Your task to perform on an android device: Empty the shopping cart on walmart. Add macbook to the cart on walmart, then select checkout. Image 0: 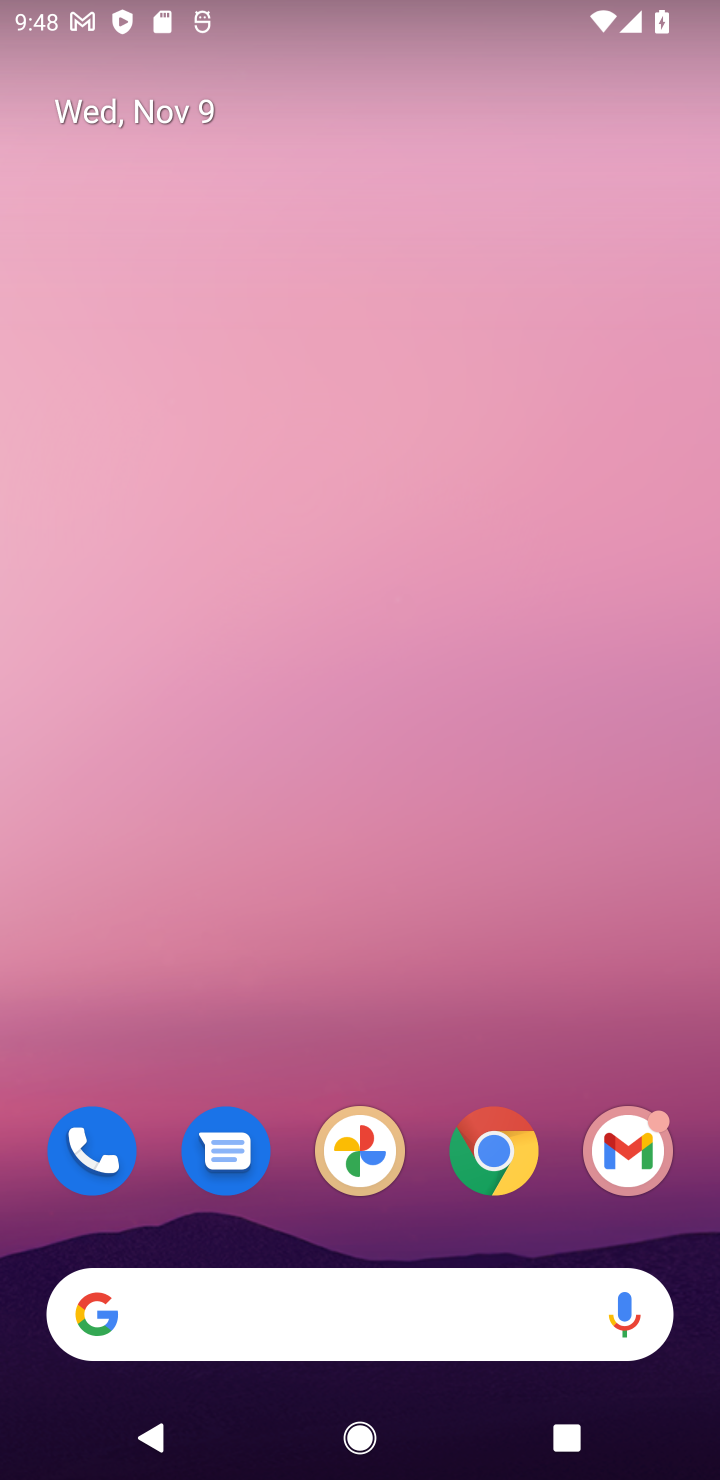
Step 0: click (486, 1147)
Your task to perform on an android device: Empty the shopping cart on walmart. Add macbook to the cart on walmart, then select checkout. Image 1: 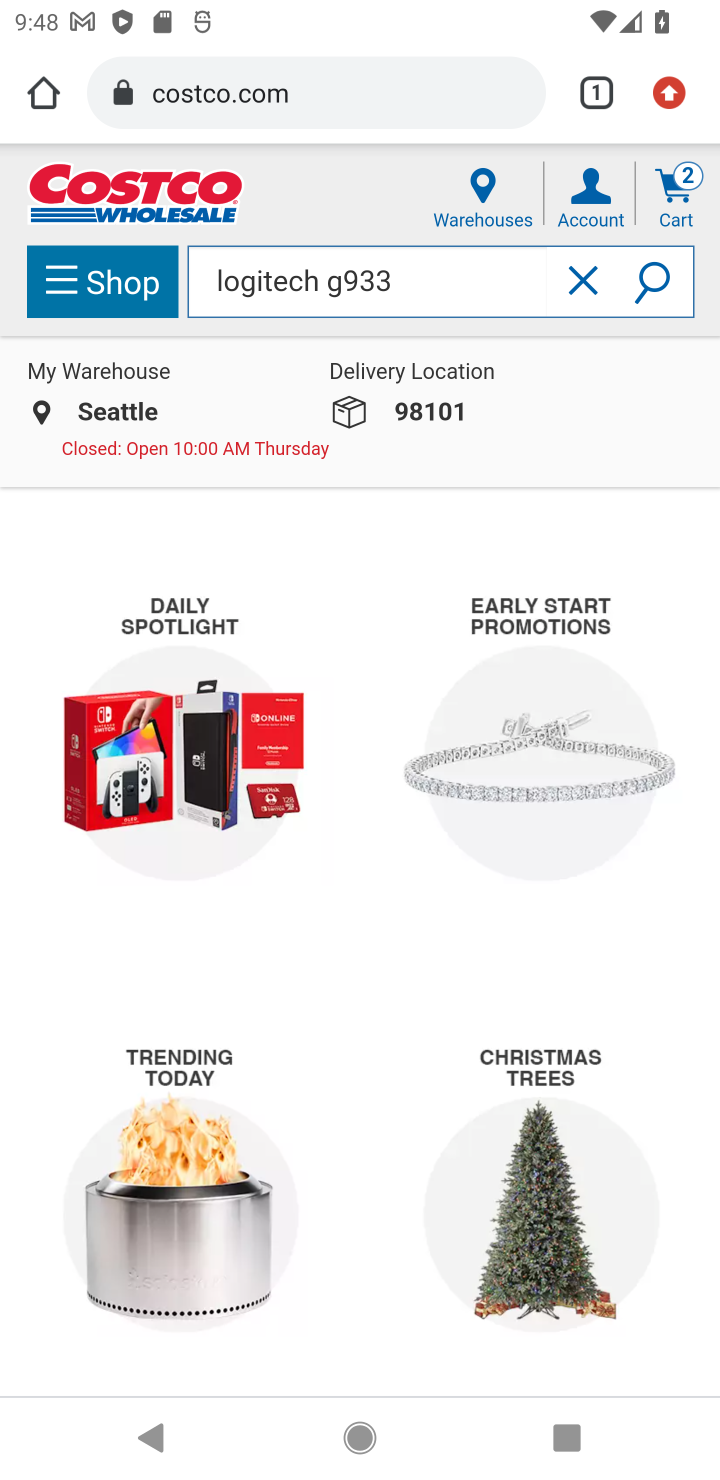
Step 1: click (41, 90)
Your task to perform on an android device: Empty the shopping cart on walmart. Add macbook to the cart on walmart, then select checkout. Image 2: 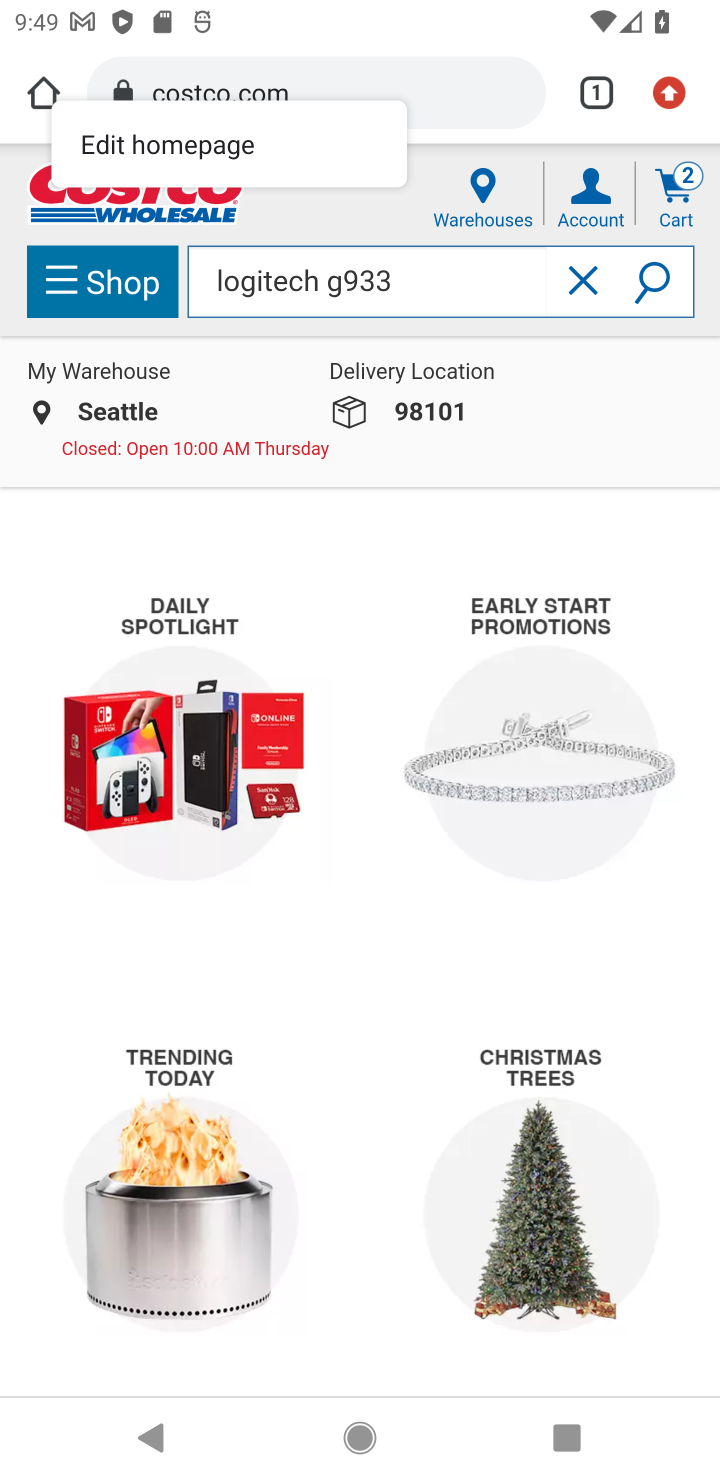
Step 2: click (35, 96)
Your task to perform on an android device: Empty the shopping cart on walmart. Add macbook to the cart on walmart, then select checkout. Image 3: 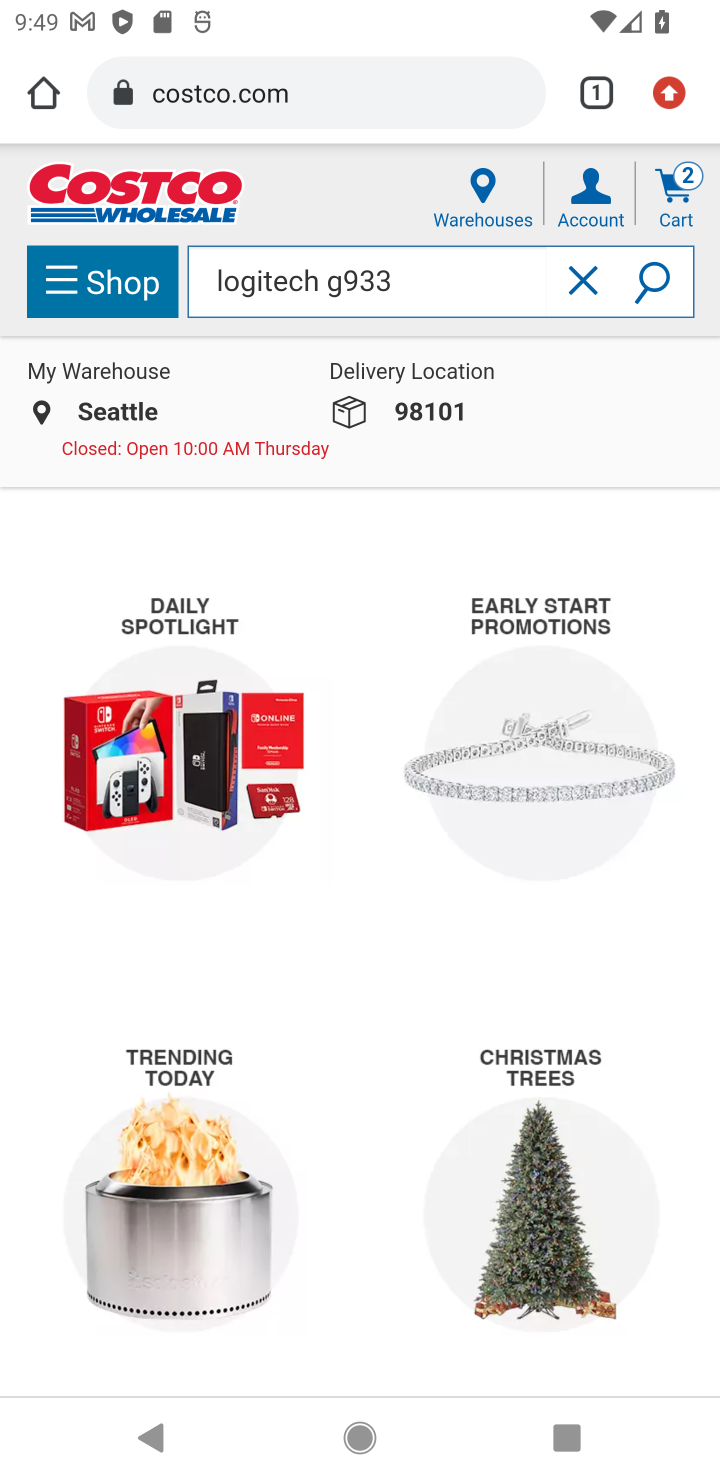
Step 3: click (32, 95)
Your task to perform on an android device: Empty the shopping cart on walmart. Add macbook to the cart on walmart, then select checkout. Image 4: 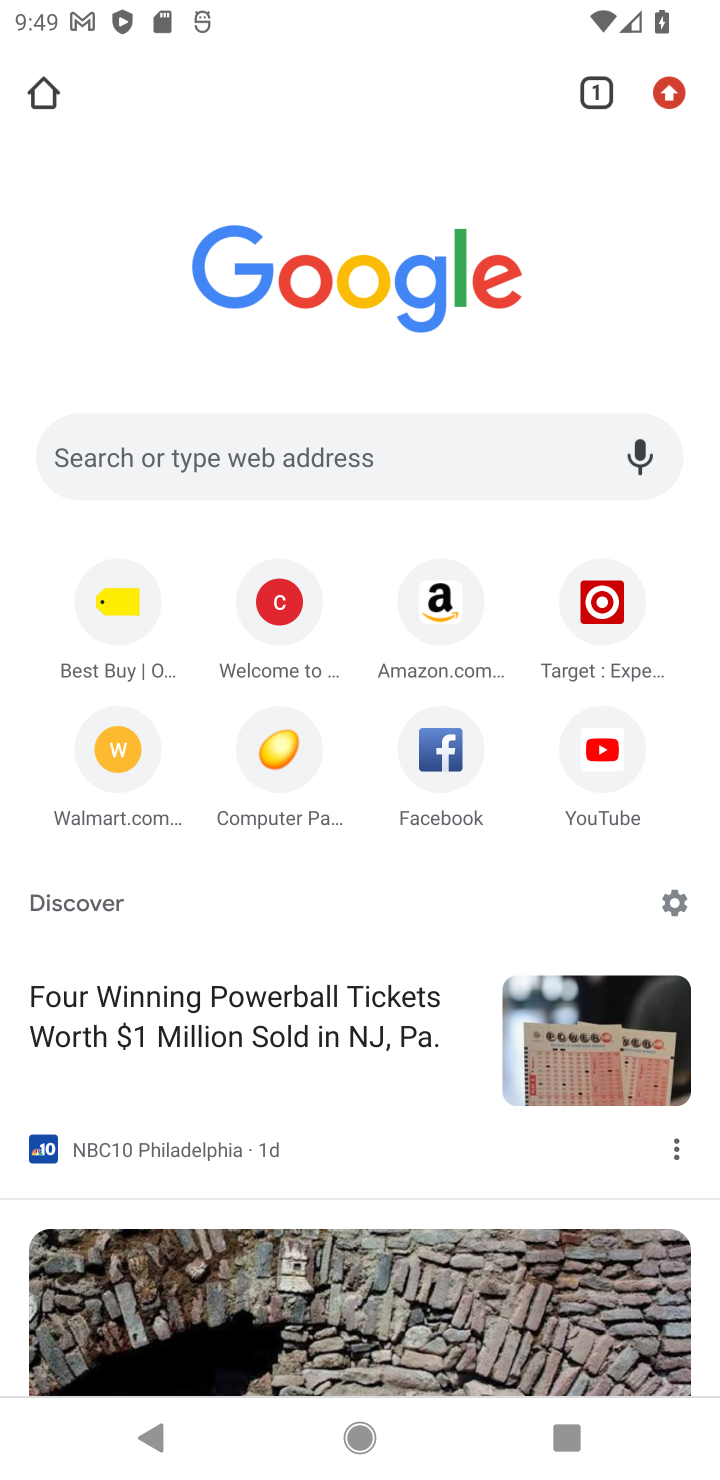
Step 4: click (427, 473)
Your task to perform on an android device: Empty the shopping cart on walmart. Add macbook to the cart on walmart, then select checkout. Image 5: 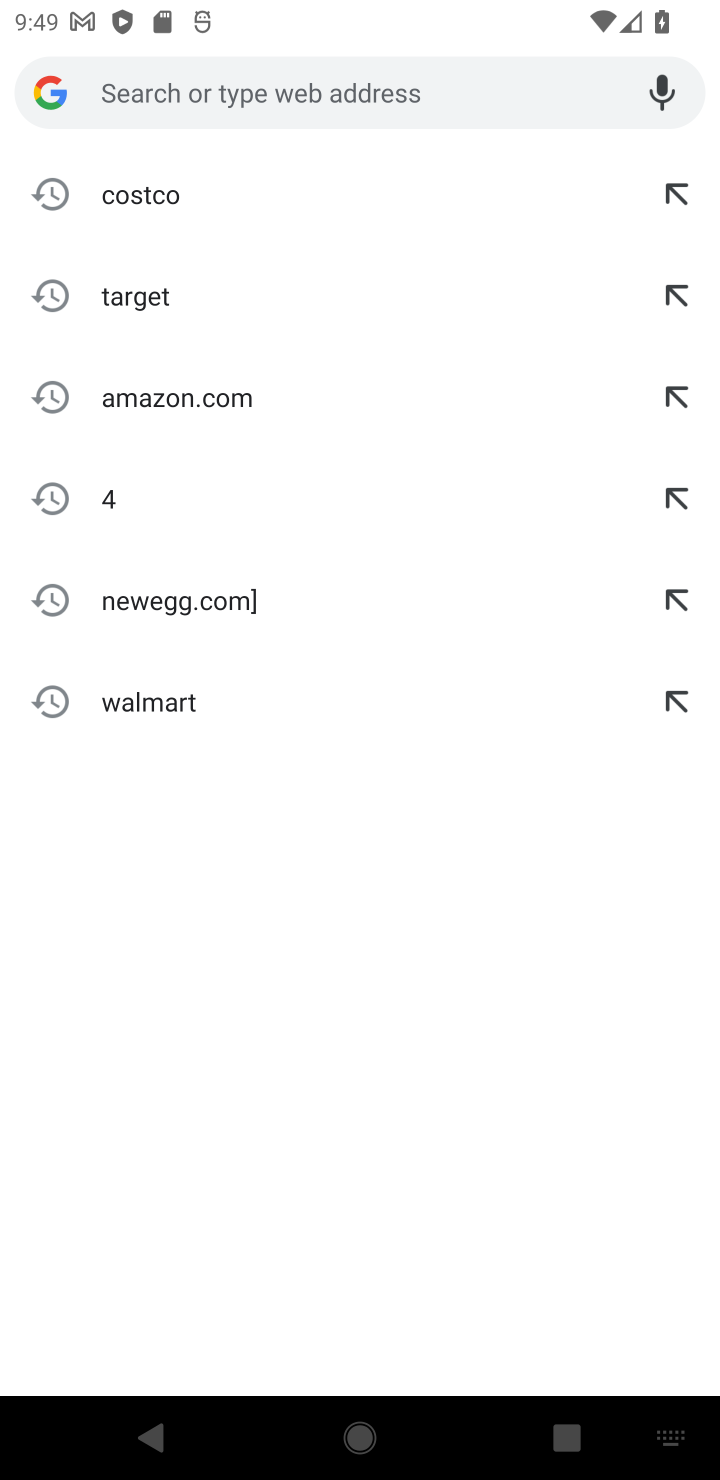
Step 5: type "logitech g933"
Your task to perform on an android device: Empty the shopping cart on walmart. Add macbook to the cart on walmart, then select checkout. Image 6: 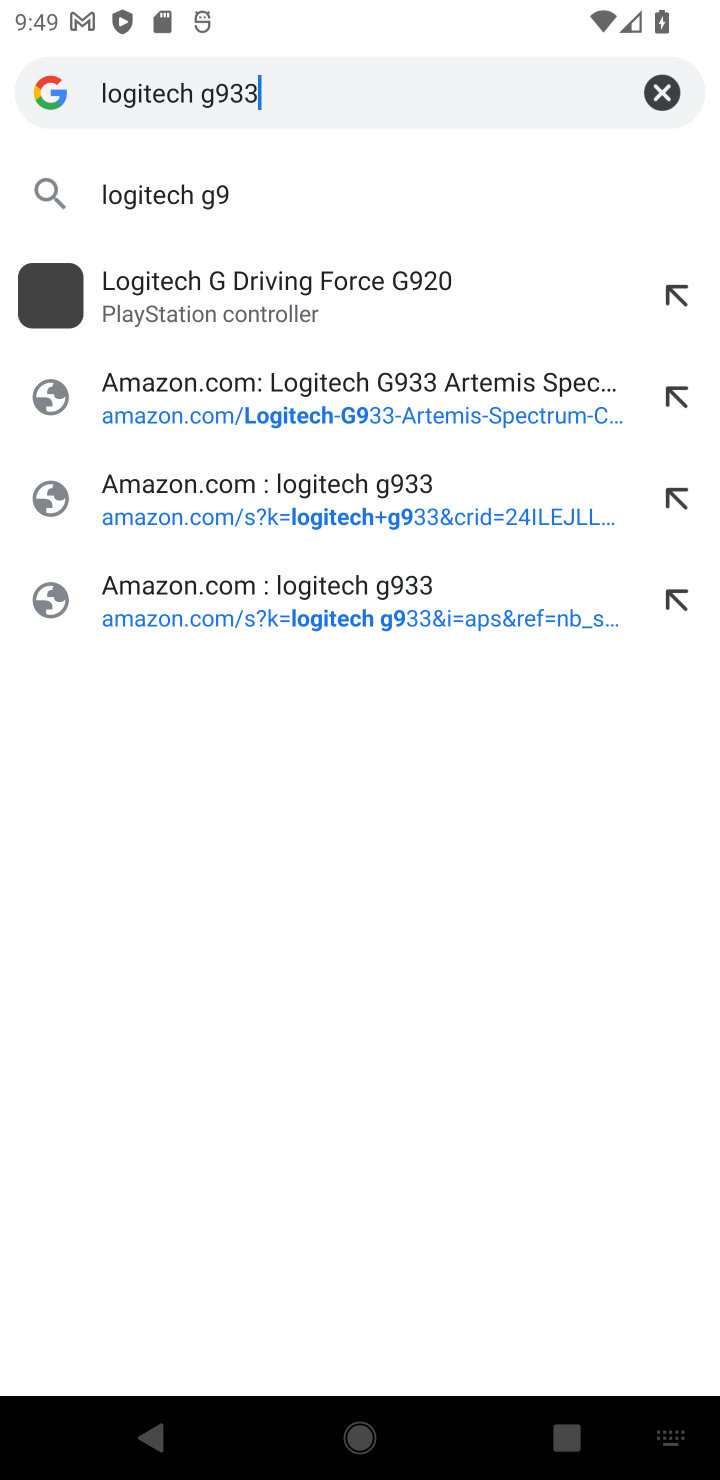
Step 6: press enter
Your task to perform on an android device: Empty the shopping cart on walmart. Add macbook to the cart on walmart, then select checkout. Image 7: 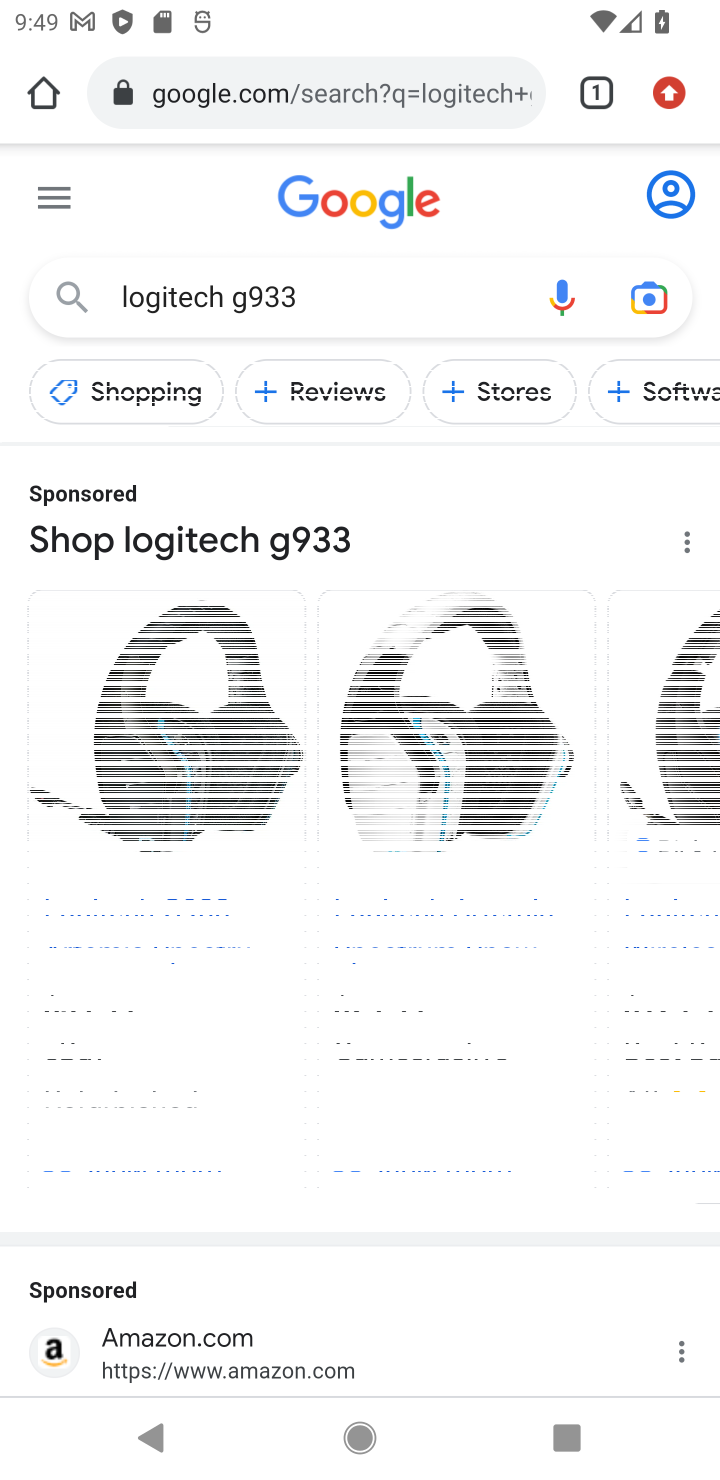
Step 7: click (47, 97)
Your task to perform on an android device: Empty the shopping cart on walmart. Add macbook to the cart on walmart, then select checkout. Image 8: 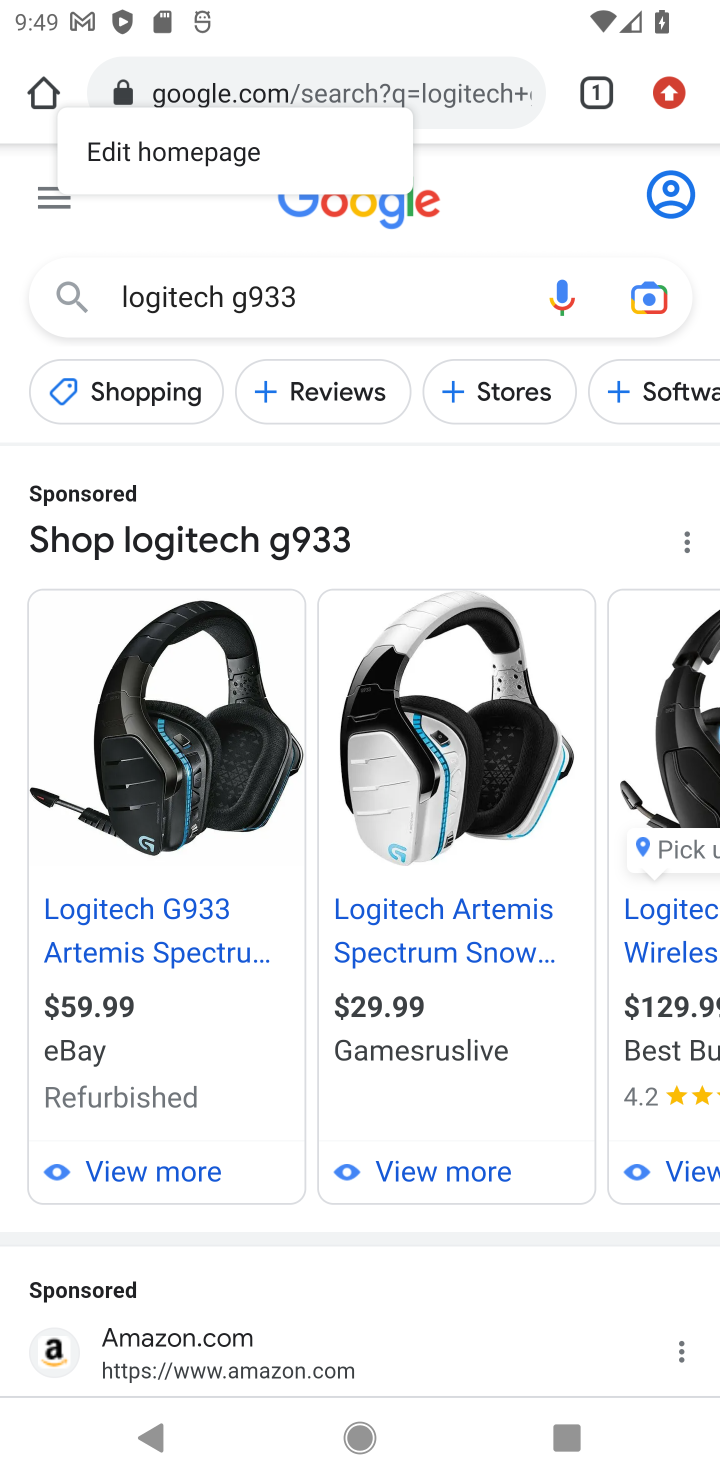
Step 8: click (39, 89)
Your task to perform on an android device: Empty the shopping cart on walmart. Add macbook to the cart on walmart, then select checkout. Image 9: 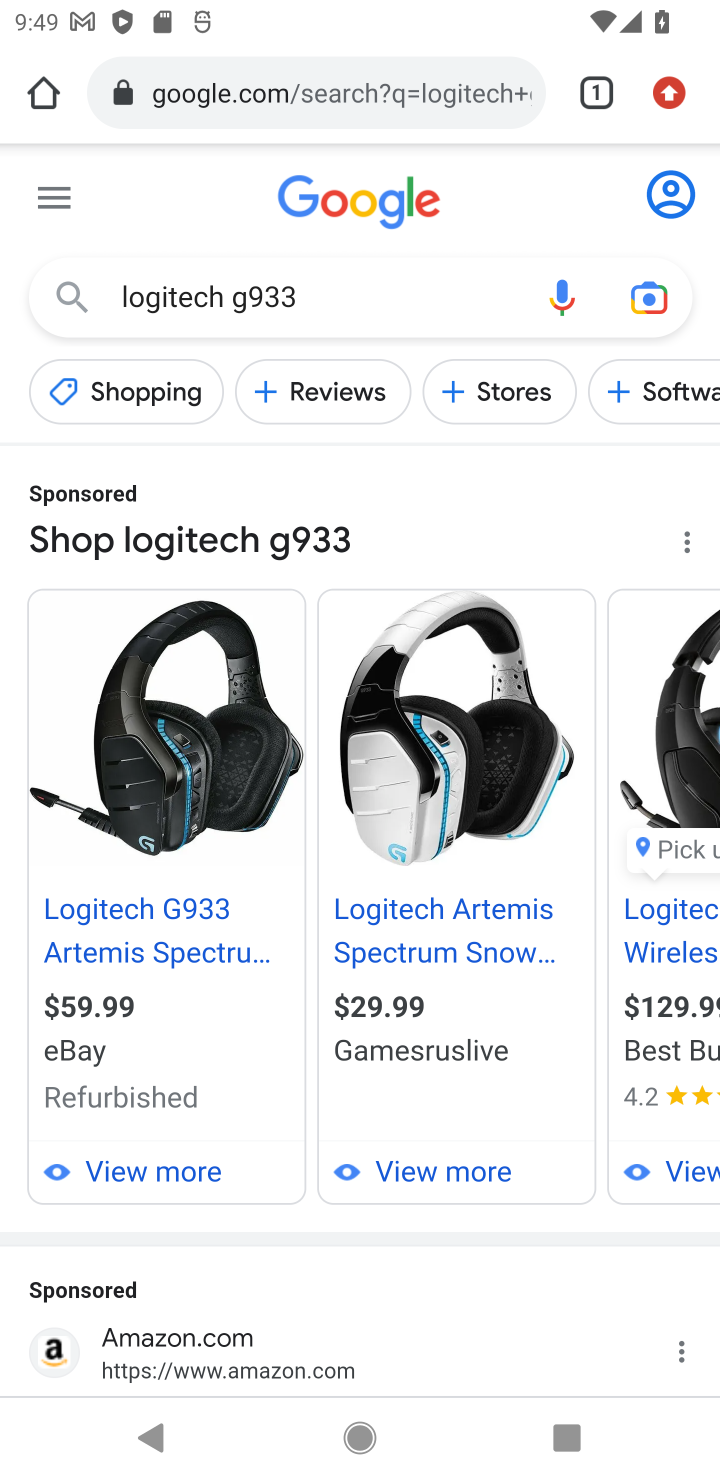
Step 9: click (478, 86)
Your task to perform on an android device: Empty the shopping cart on walmart. Add macbook to the cart on walmart, then select checkout. Image 10: 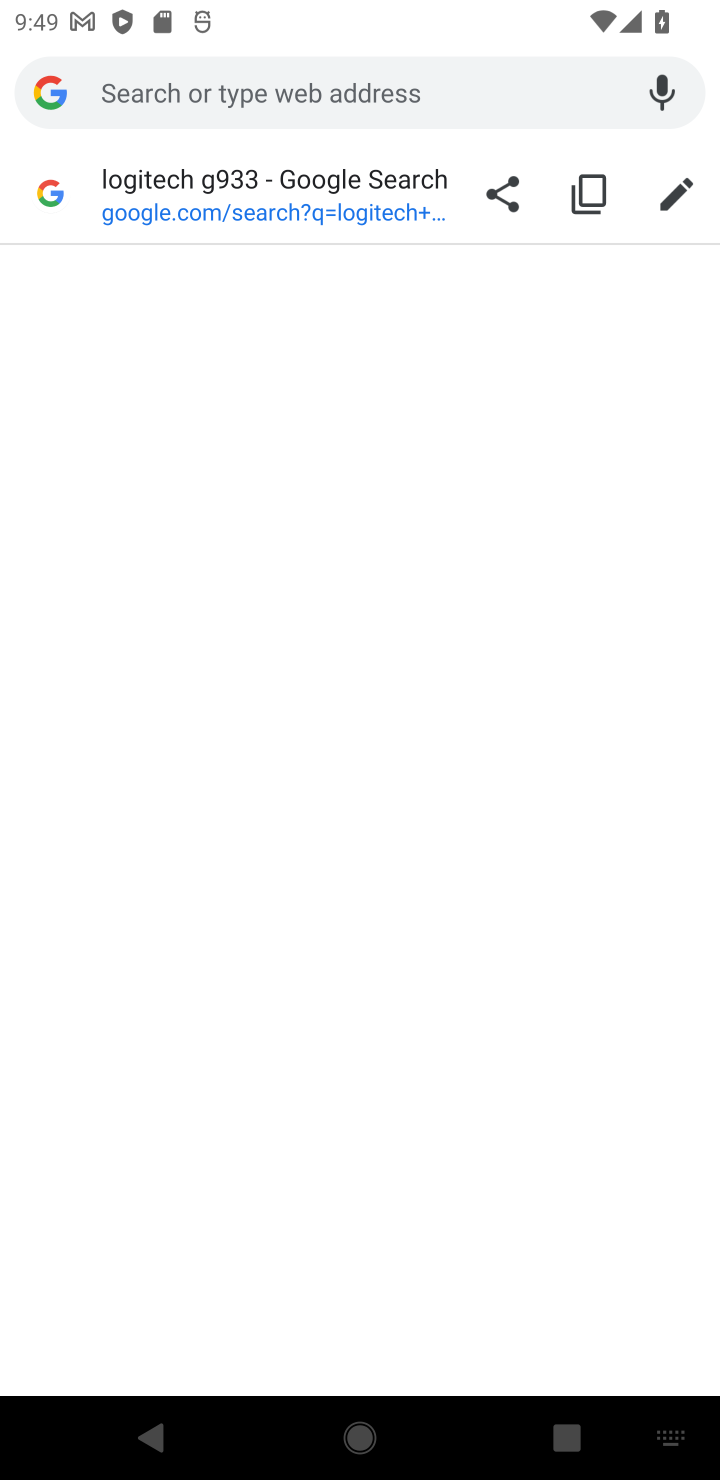
Step 10: click (478, 86)
Your task to perform on an android device: Empty the shopping cart on walmart. Add macbook to the cart on walmart, then select checkout. Image 11: 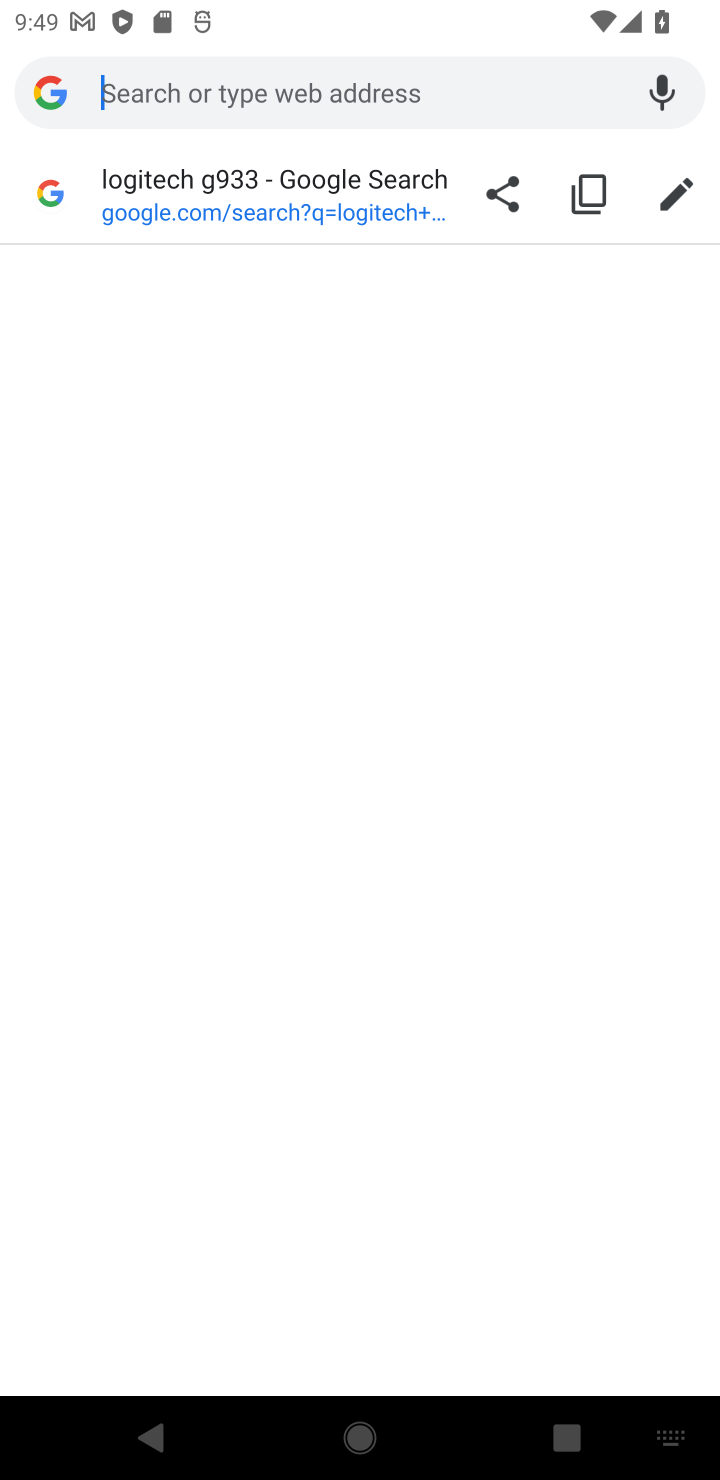
Step 11: type "walmart"
Your task to perform on an android device: Empty the shopping cart on walmart. Add macbook to the cart on walmart, then select checkout. Image 12: 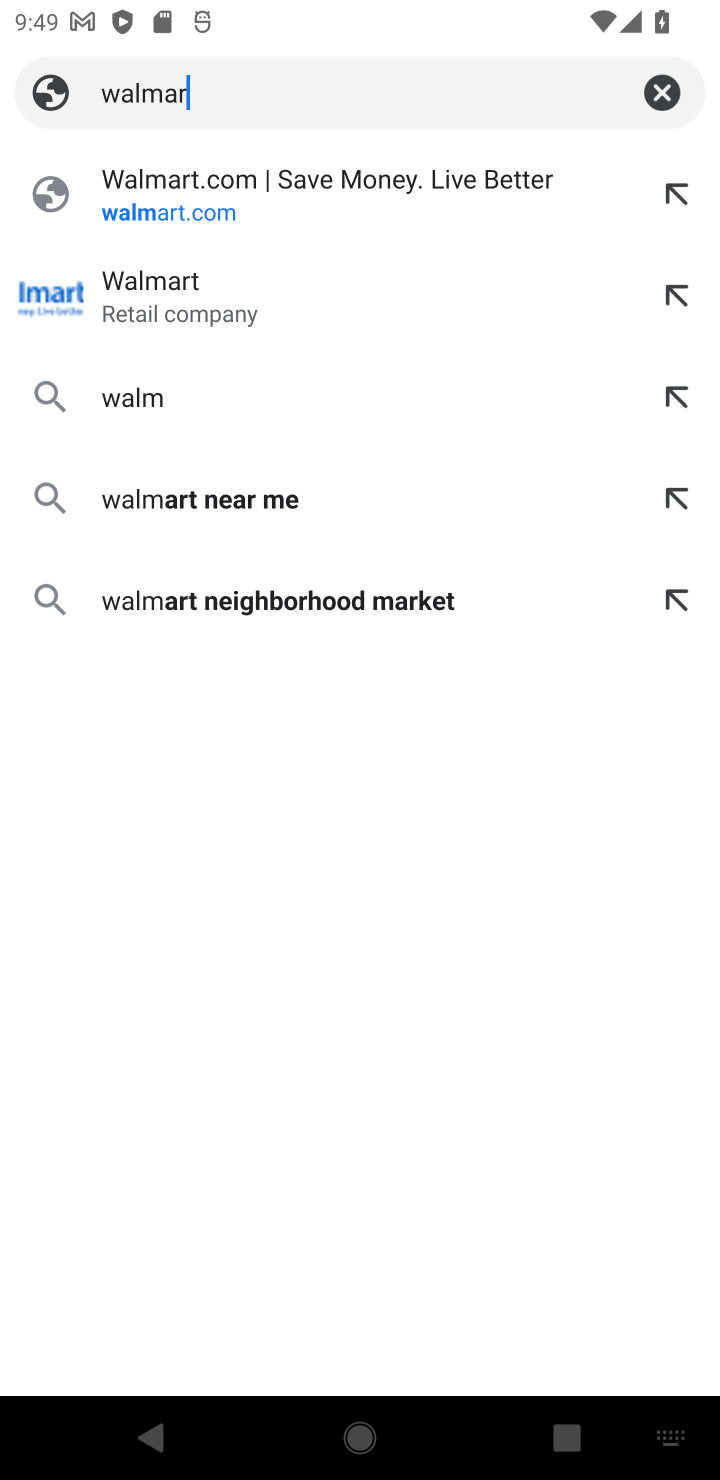
Step 12: press enter
Your task to perform on an android device: Empty the shopping cart on walmart. Add macbook to the cart on walmart, then select checkout. Image 13: 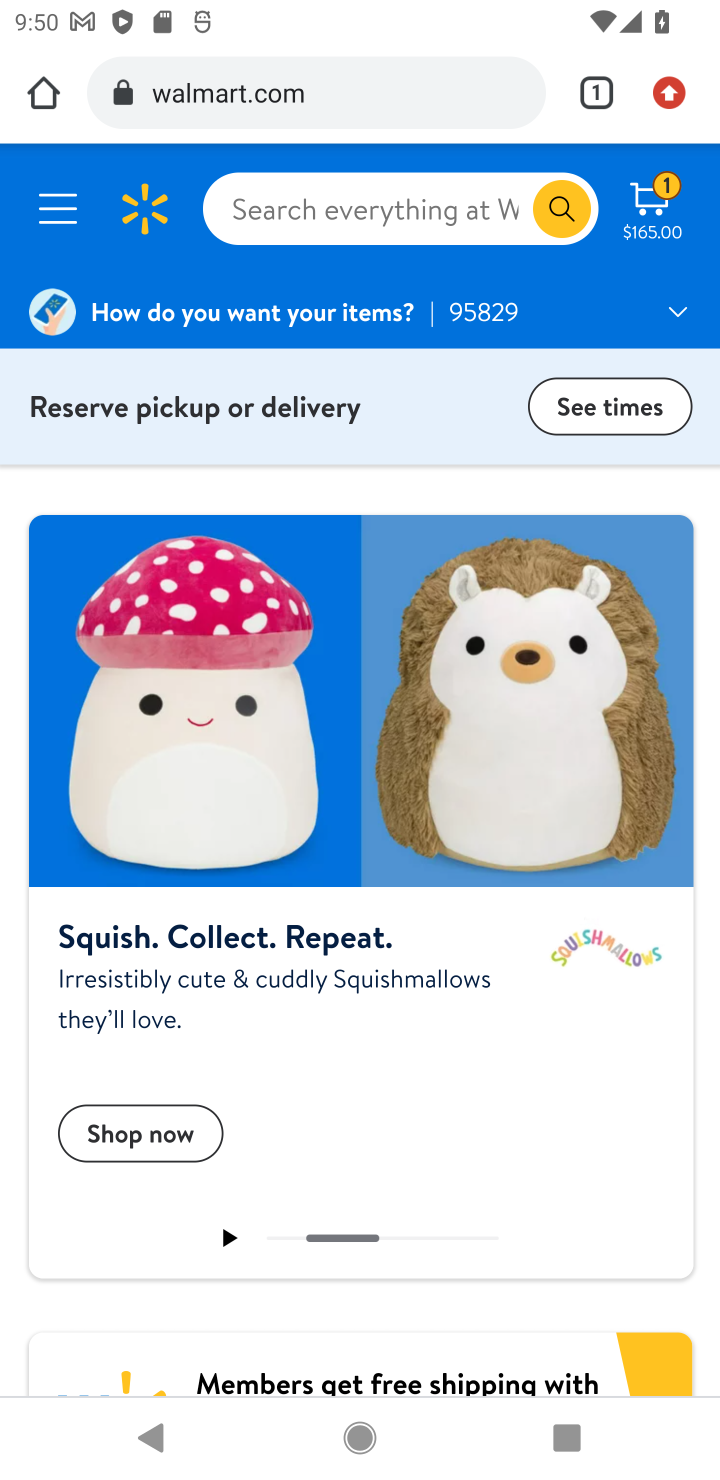
Step 13: click (651, 202)
Your task to perform on an android device: Empty the shopping cart on walmart. Add macbook to the cart on walmart, then select checkout. Image 14: 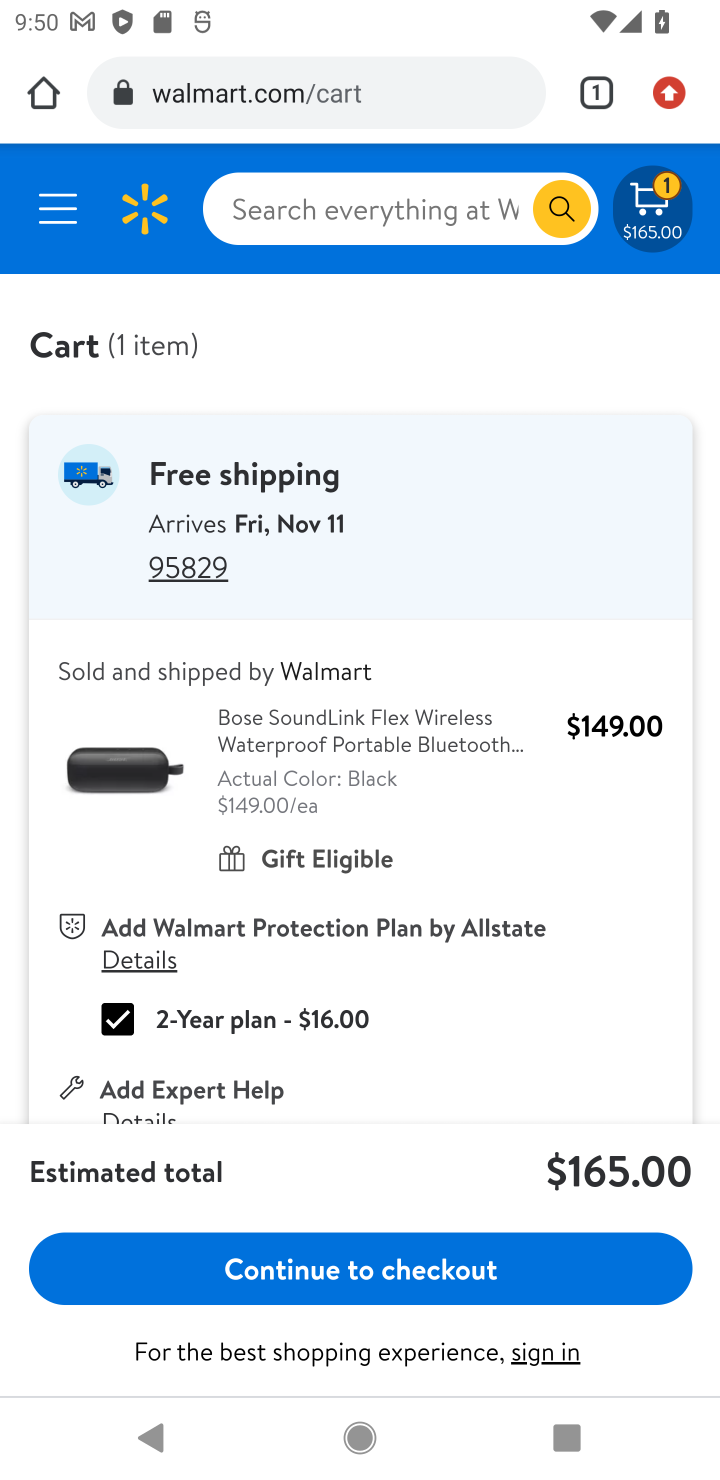
Step 14: drag from (480, 1068) to (506, 652)
Your task to perform on an android device: Empty the shopping cart on walmart. Add macbook to the cart on walmart, then select checkout. Image 15: 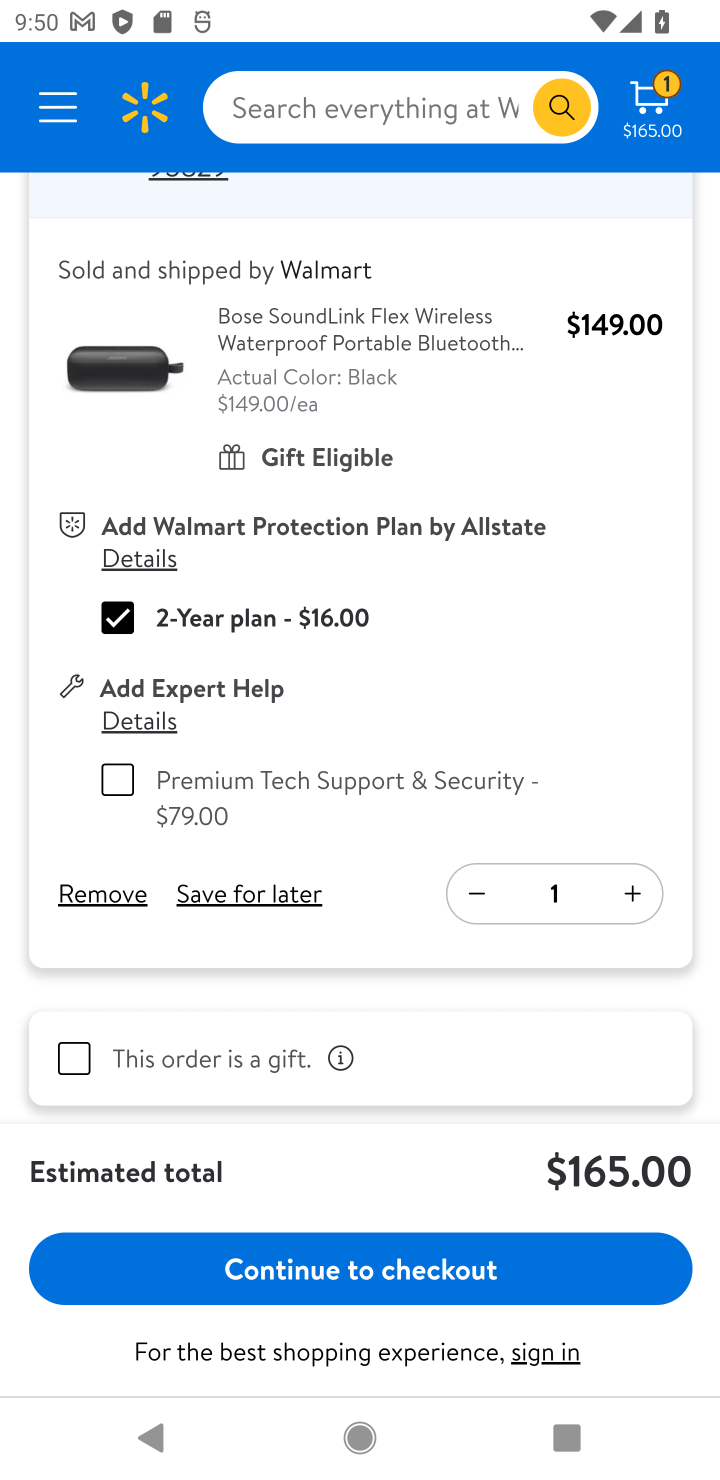
Step 15: click (95, 895)
Your task to perform on an android device: Empty the shopping cart on walmart. Add macbook to the cart on walmart, then select checkout. Image 16: 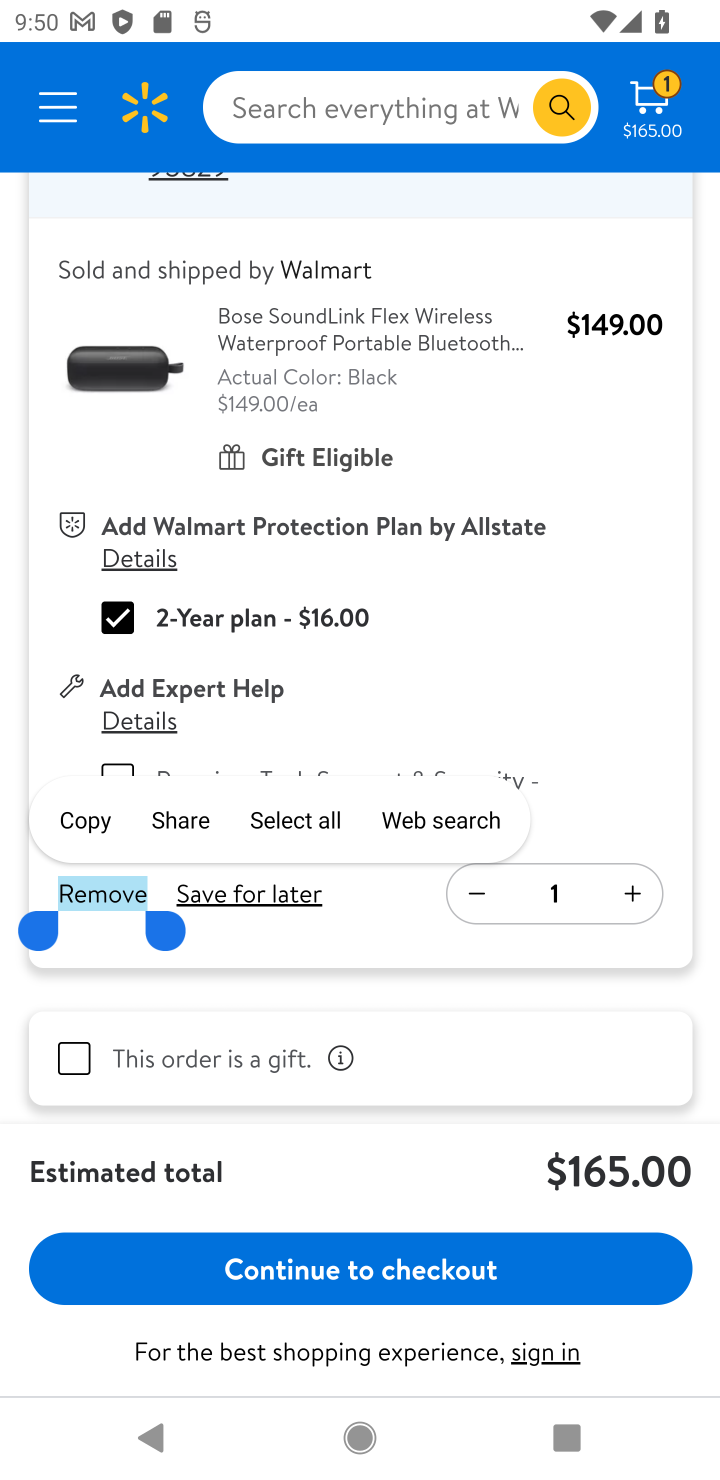
Step 16: click (95, 895)
Your task to perform on an android device: Empty the shopping cart on walmart. Add macbook to the cart on walmart, then select checkout. Image 17: 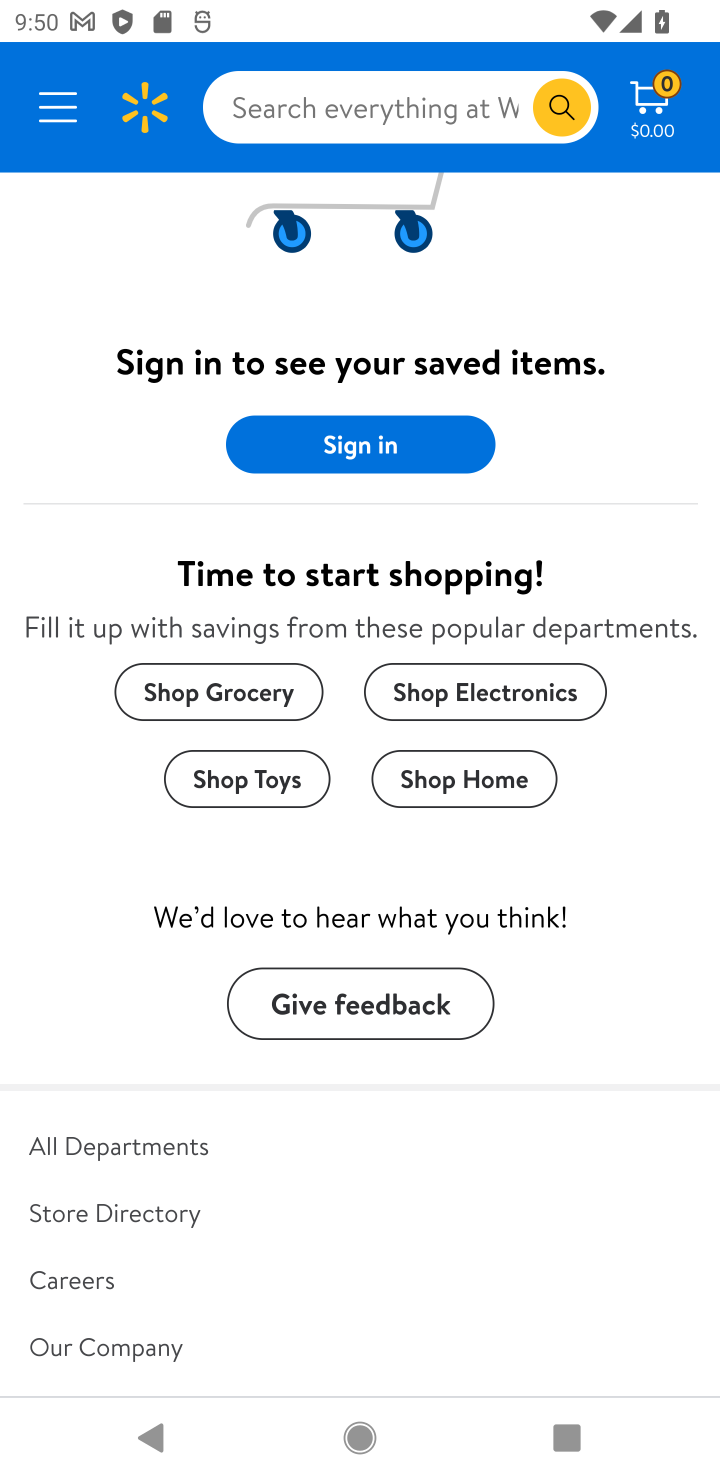
Step 17: click (400, 109)
Your task to perform on an android device: Empty the shopping cart on walmart. Add macbook to the cart on walmart, then select checkout. Image 18: 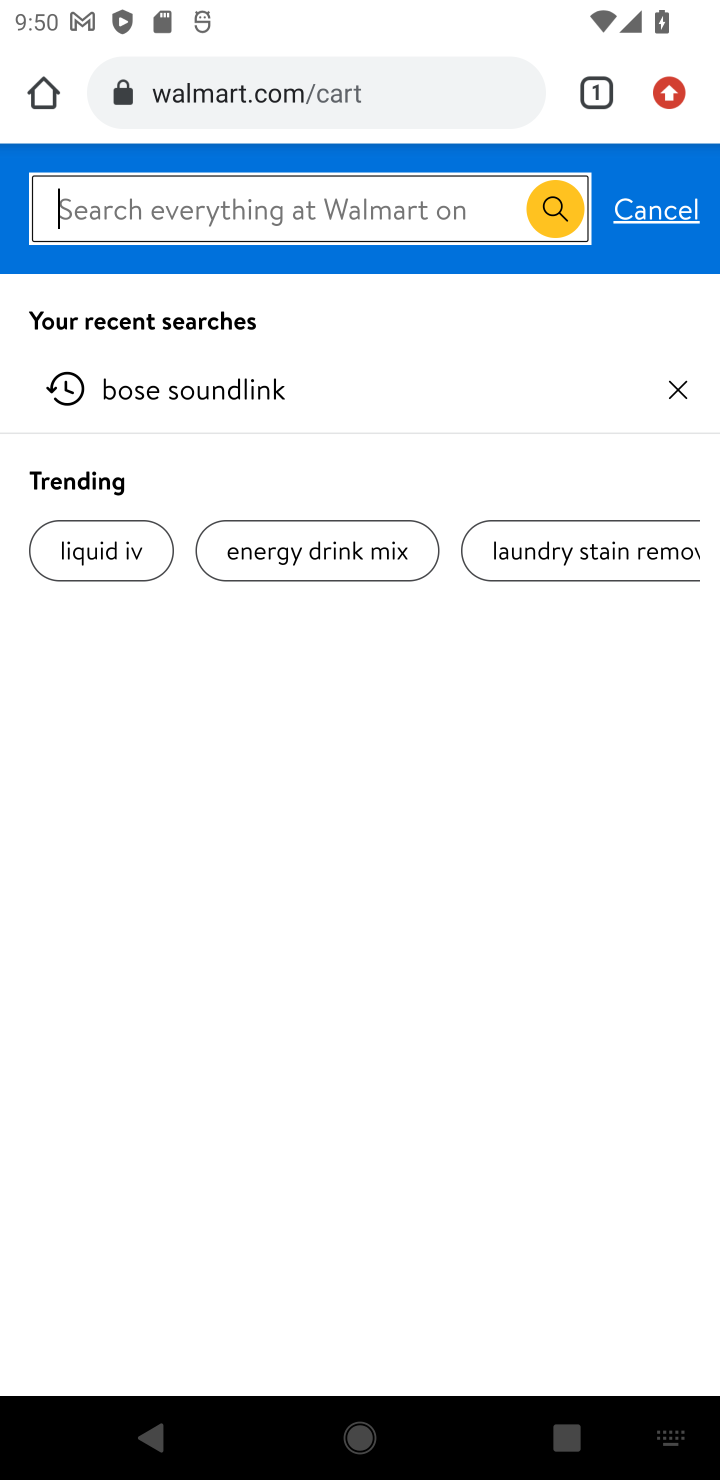
Step 18: press enter
Your task to perform on an android device: Empty the shopping cart on walmart. Add macbook to the cart on walmart, then select checkout. Image 19: 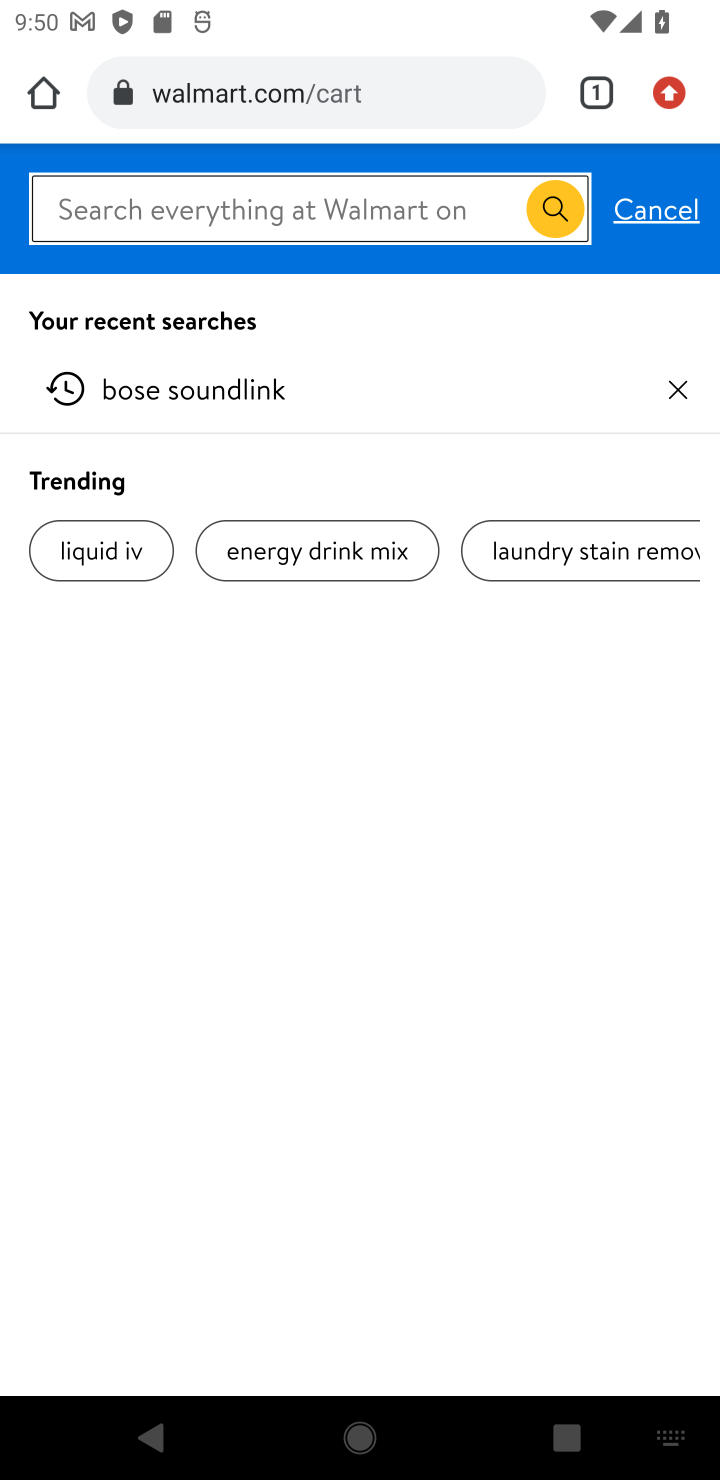
Step 19: type "macbook"
Your task to perform on an android device: Empty the shopping cart on walmart. Add macbook to the cart on walmart, then select checkout. Image 20: 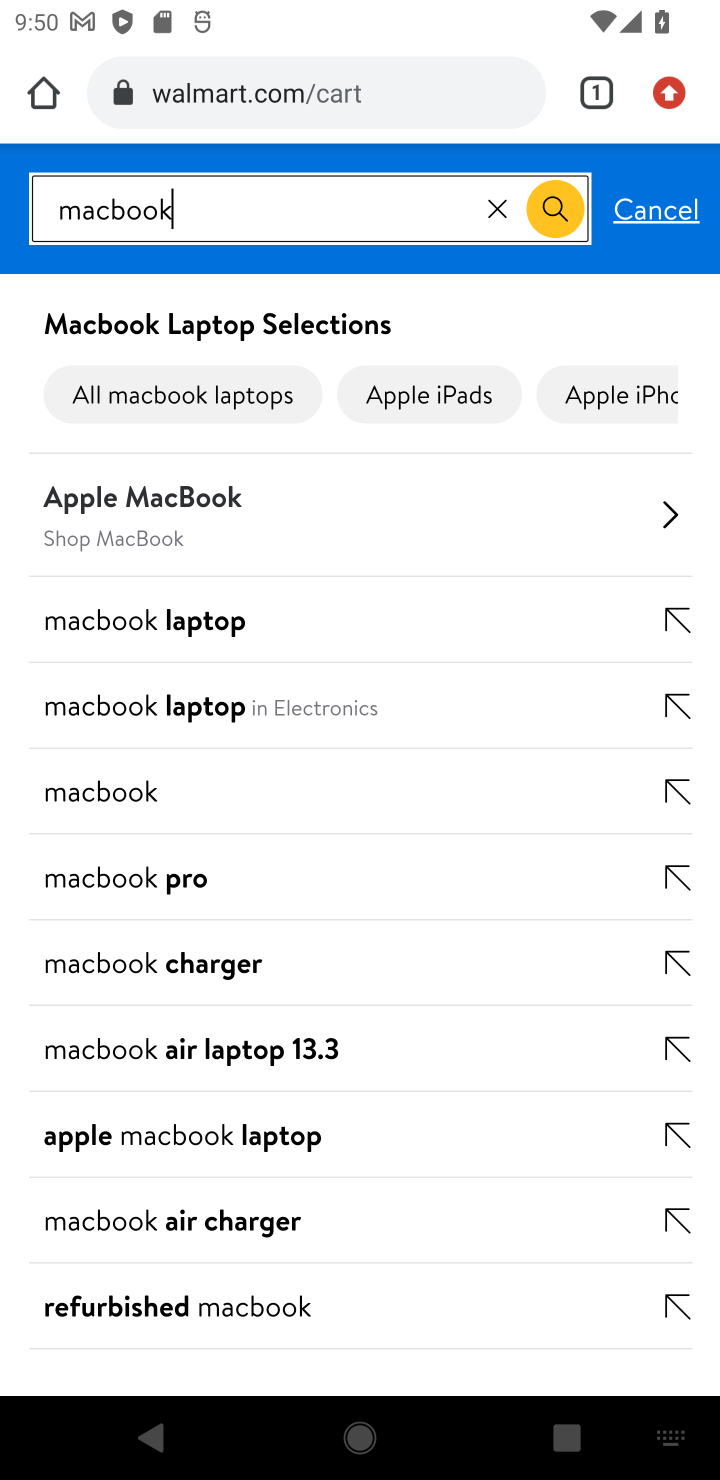
Step 20: click (130, 792)
Your task to perform on an android device: Empty the shopping cart on walmart. Add macbook to the cart on walmart, then select checkout. Image 21: 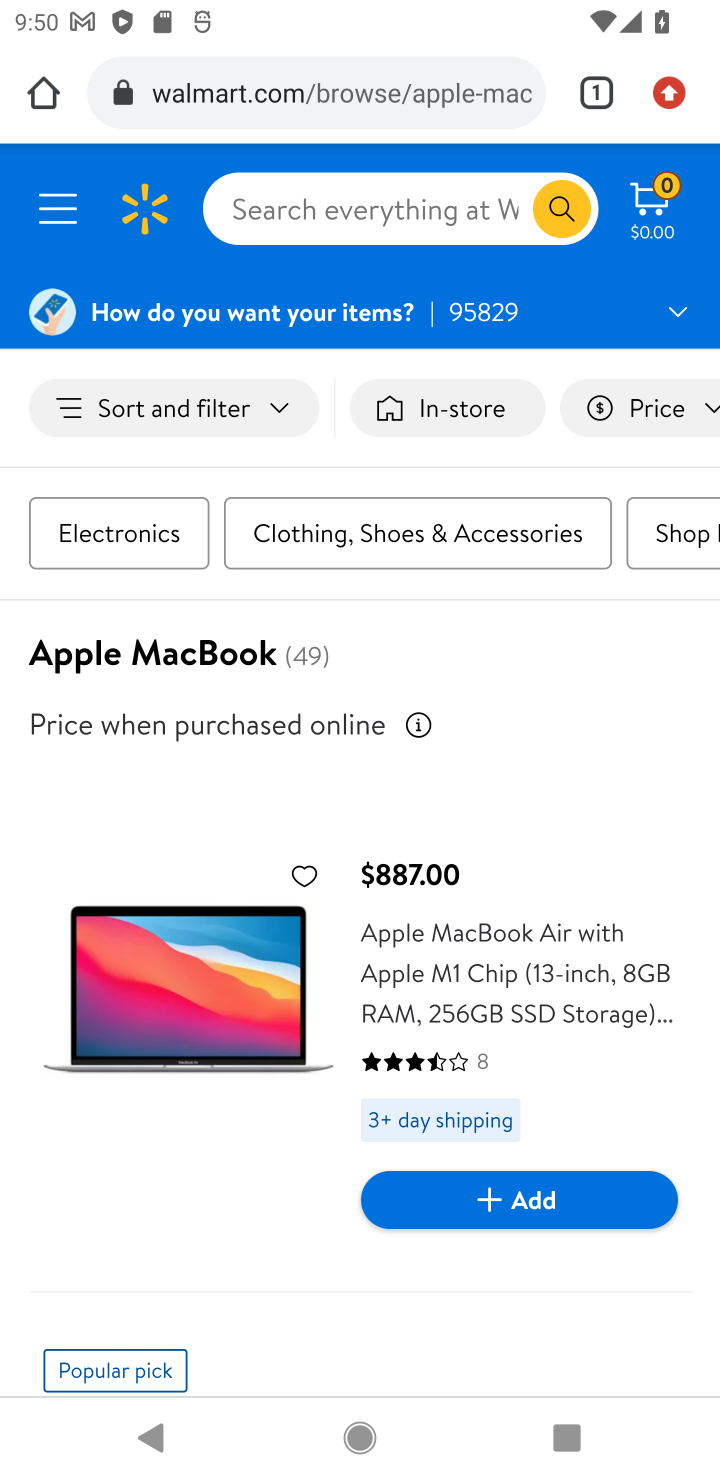
Step 21: drag from (270, 1177) to (330, 529)
Your task to perform on an android device: Empty the shopping cart on walmart. Add macbook to the cart on walmart, then select checkout. Image 22: 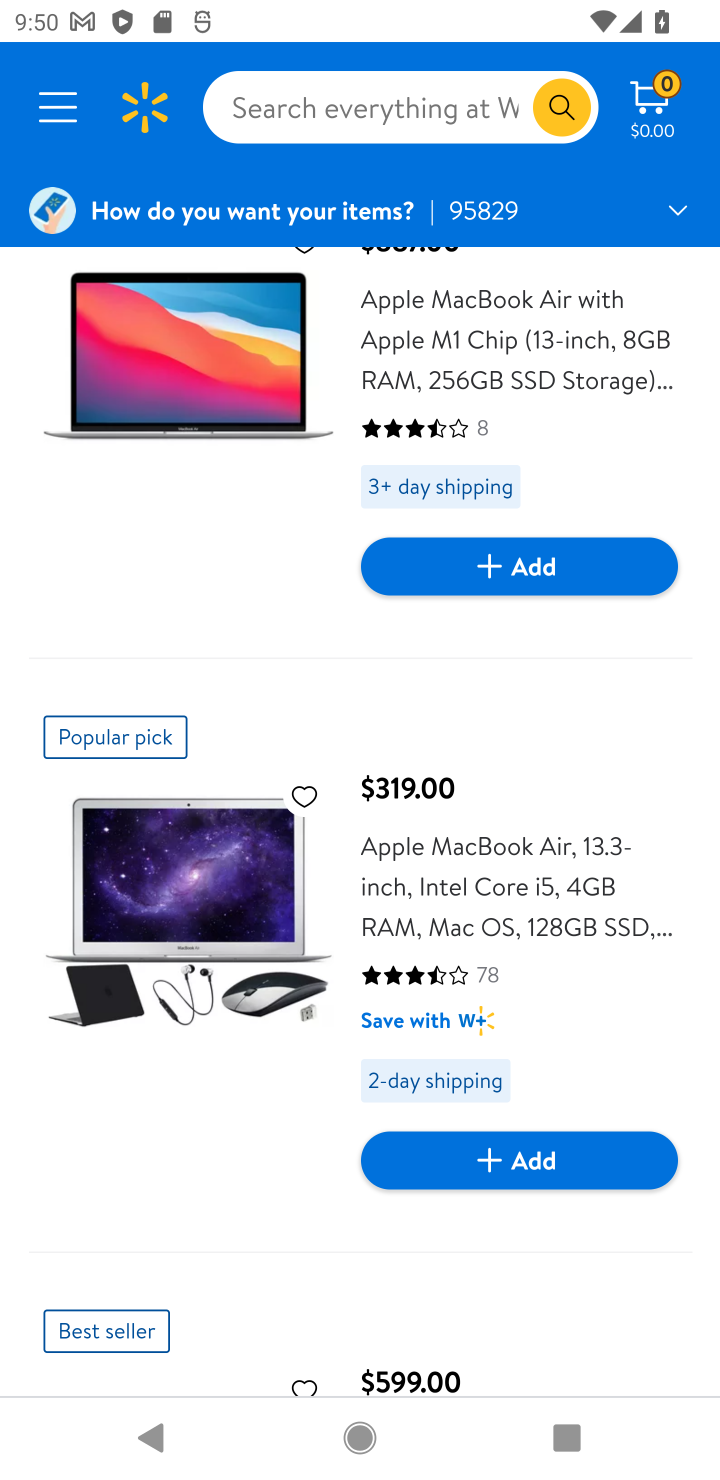
Step 22: click (204, 388)
Your task to perform on an android device: Empty the shopping cart on walmart. Add macbook to the cart on walmart, then select checkout. Image 23: 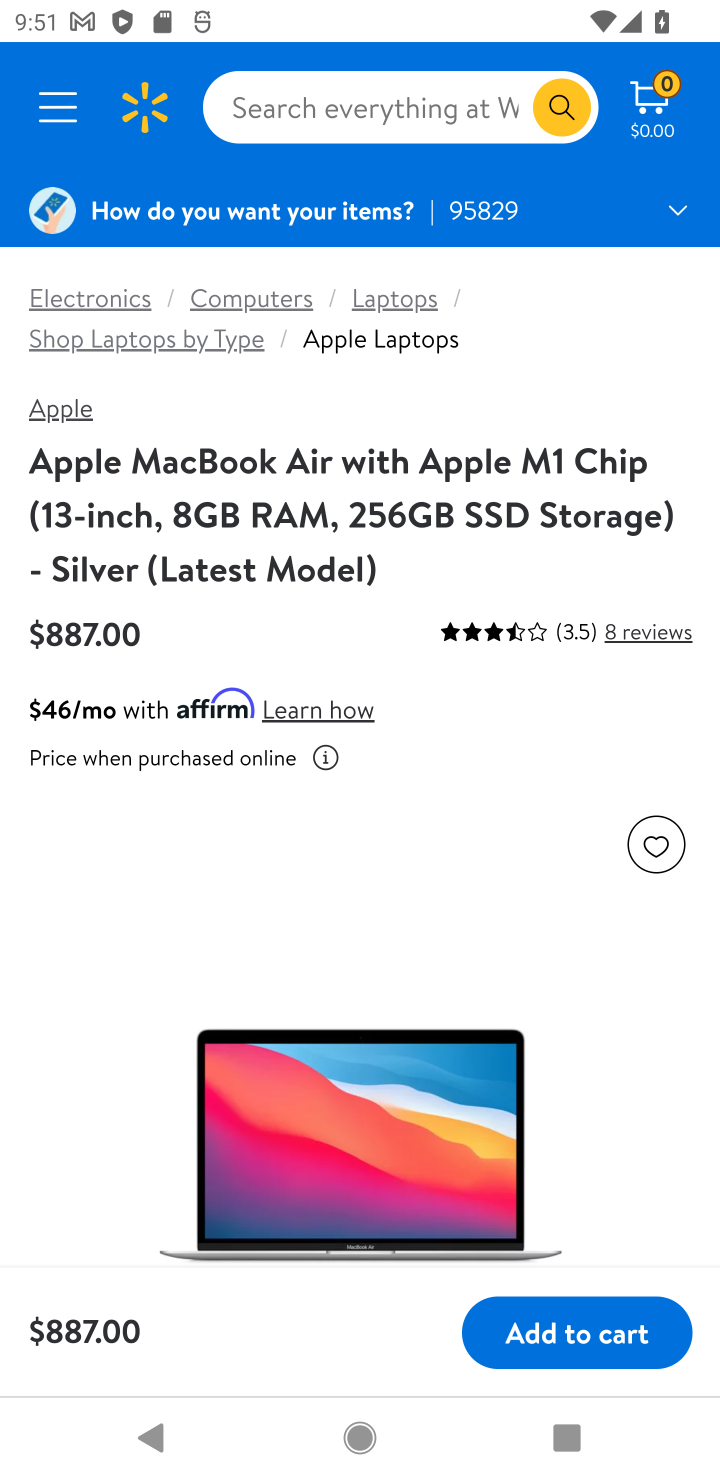
Step 23: click (600, 1330)
Your task to perform on an android device: Empty the shopping cart on walmart. Add macbook to the cart on walmart, then select checkout. Image 24: 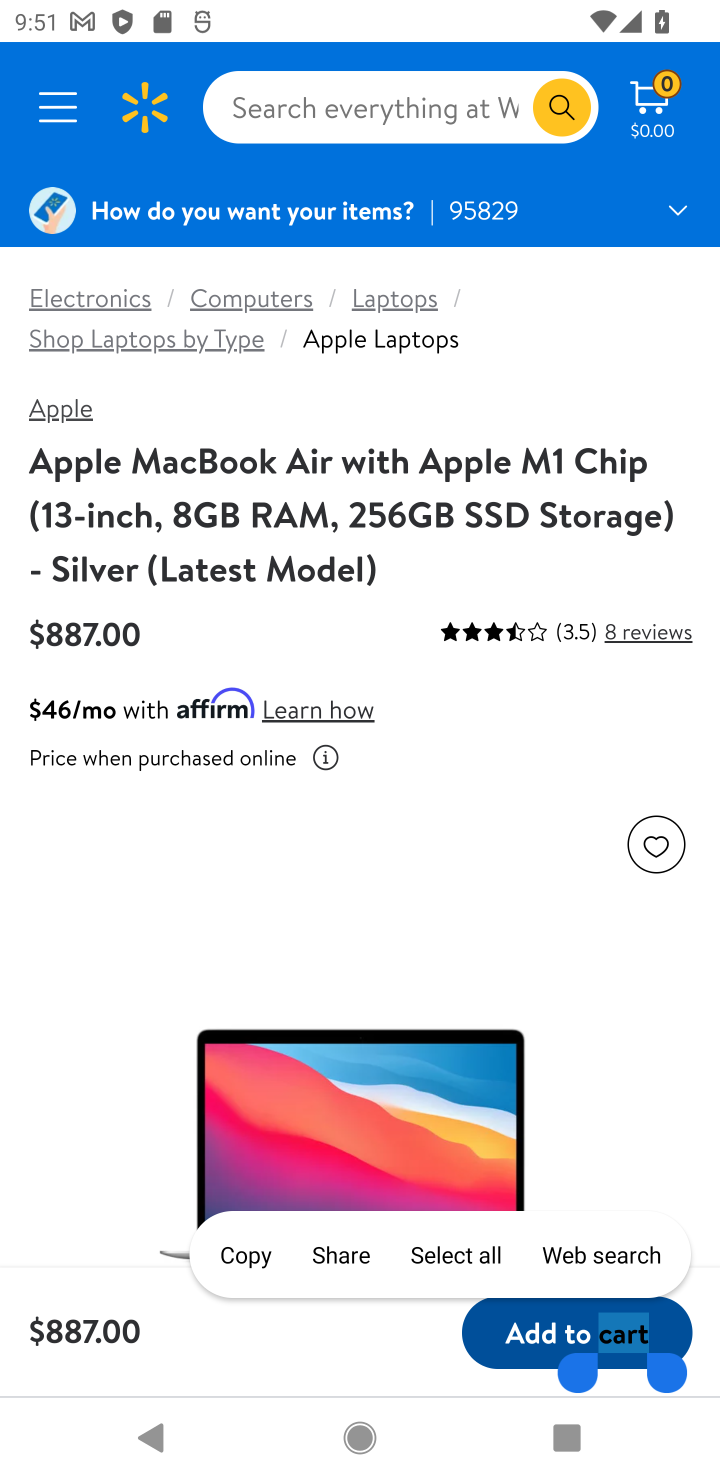
Step 24: drag from (631, 1054) to (613, 692)
Your task to perform on an android device: Empty the shopping cart on walmart. Add macbook to the cart on walmart, then select checkout. Image 25: 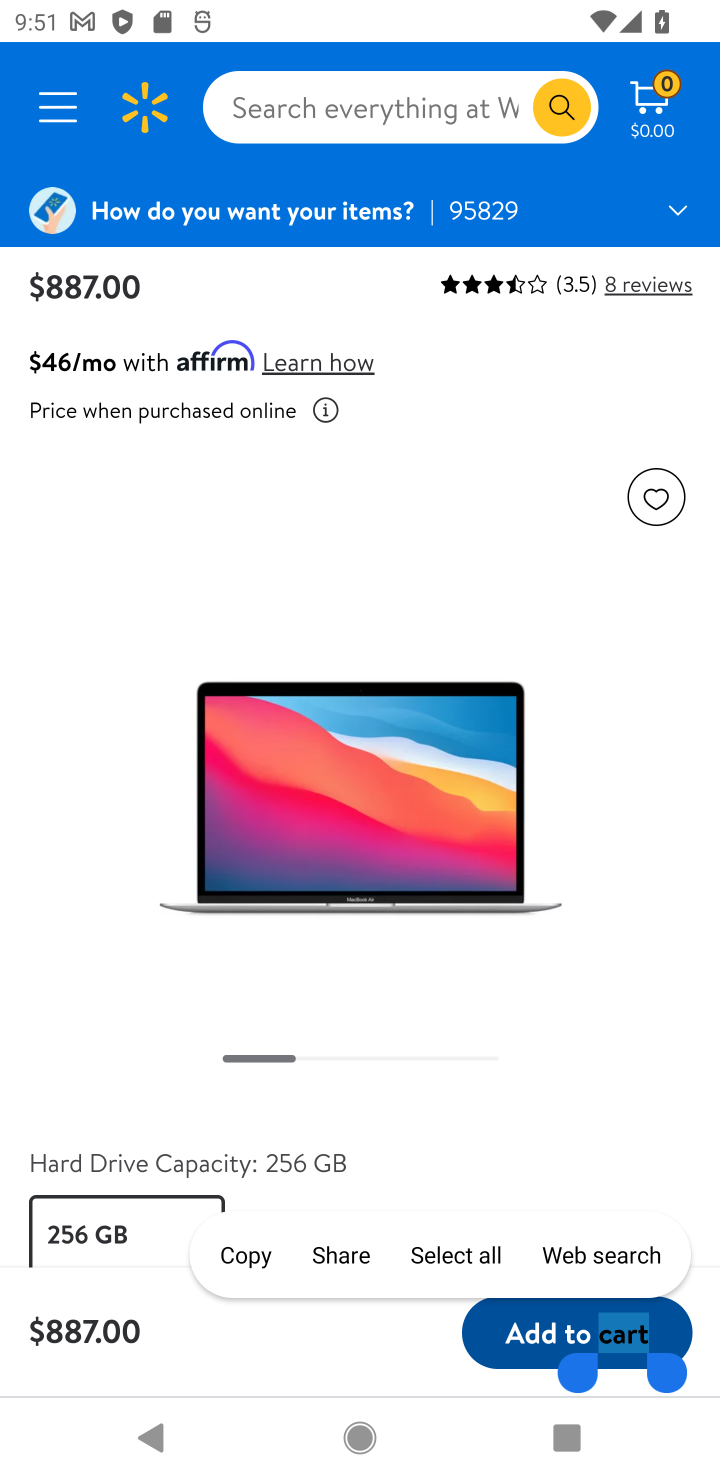
Step 25: click (520, 1332)
Your task to perform on an android device: Empty the shopping cart on walmart. Add macbook to the cart on walmart, then select checkout. Image 26: 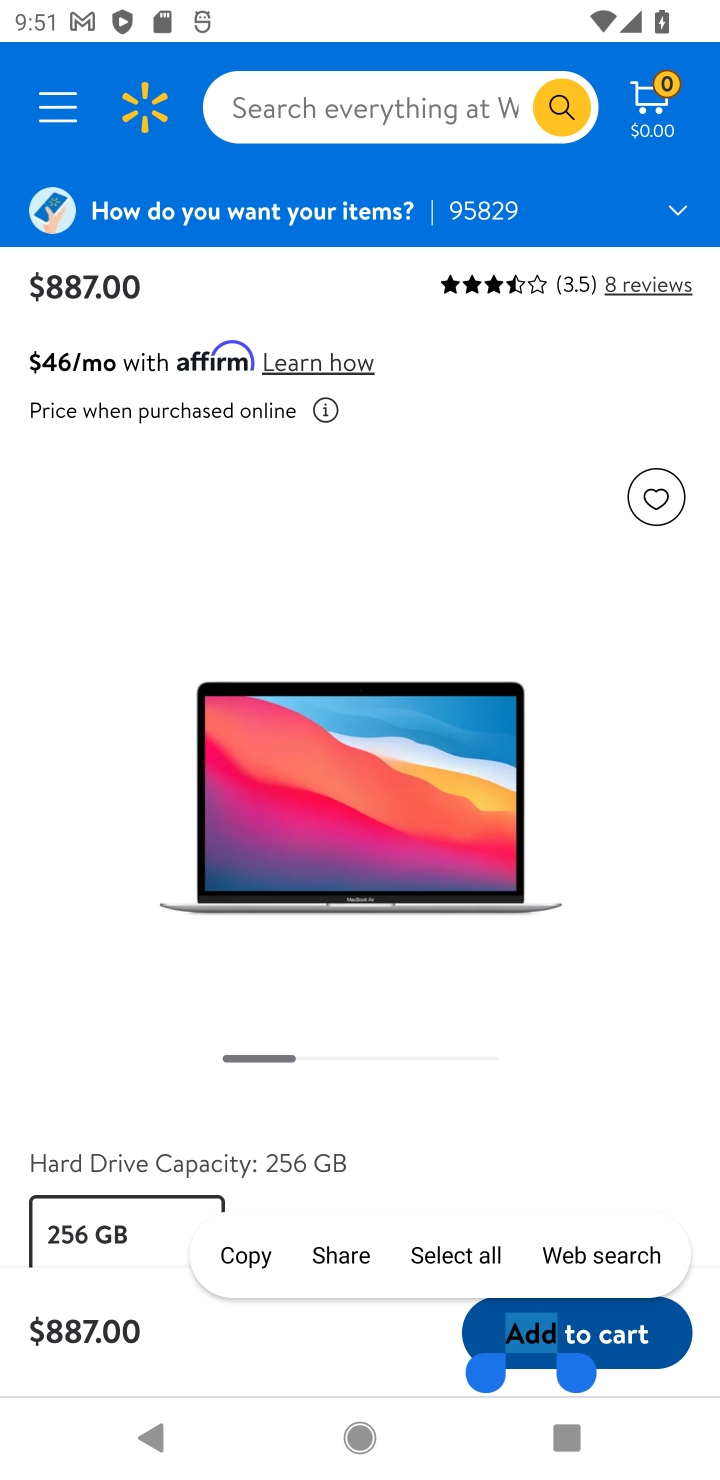
Step 26: click (580, 978)
Your task to perform on an android device: Empty the shopping cart on walmart. Add macbook to the cart on walmart, then select checkout. Image 27: 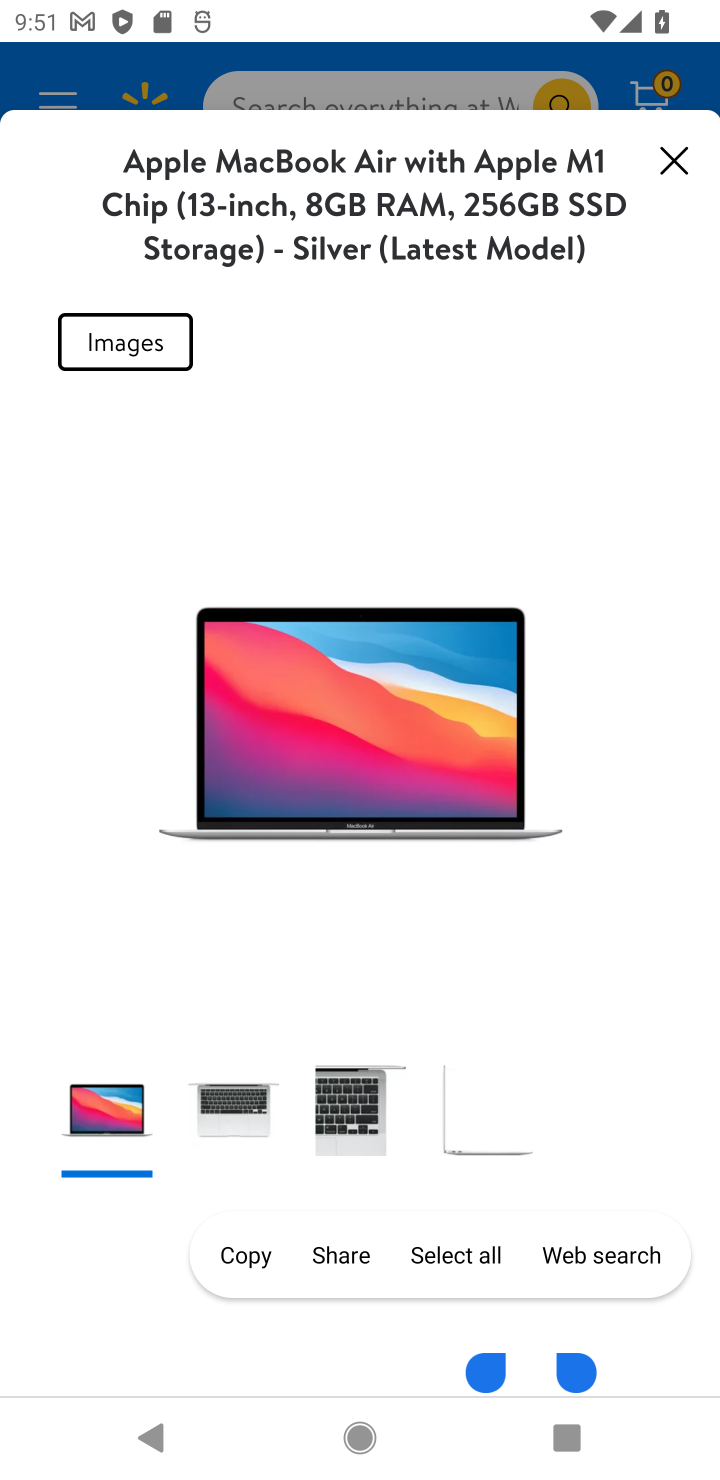
Step 27: click (615, 929)
Your task to perform on an android device: Empty the shopping cart on walmart. Add macbook to the cart on walmart, then select checkout. Image 28: 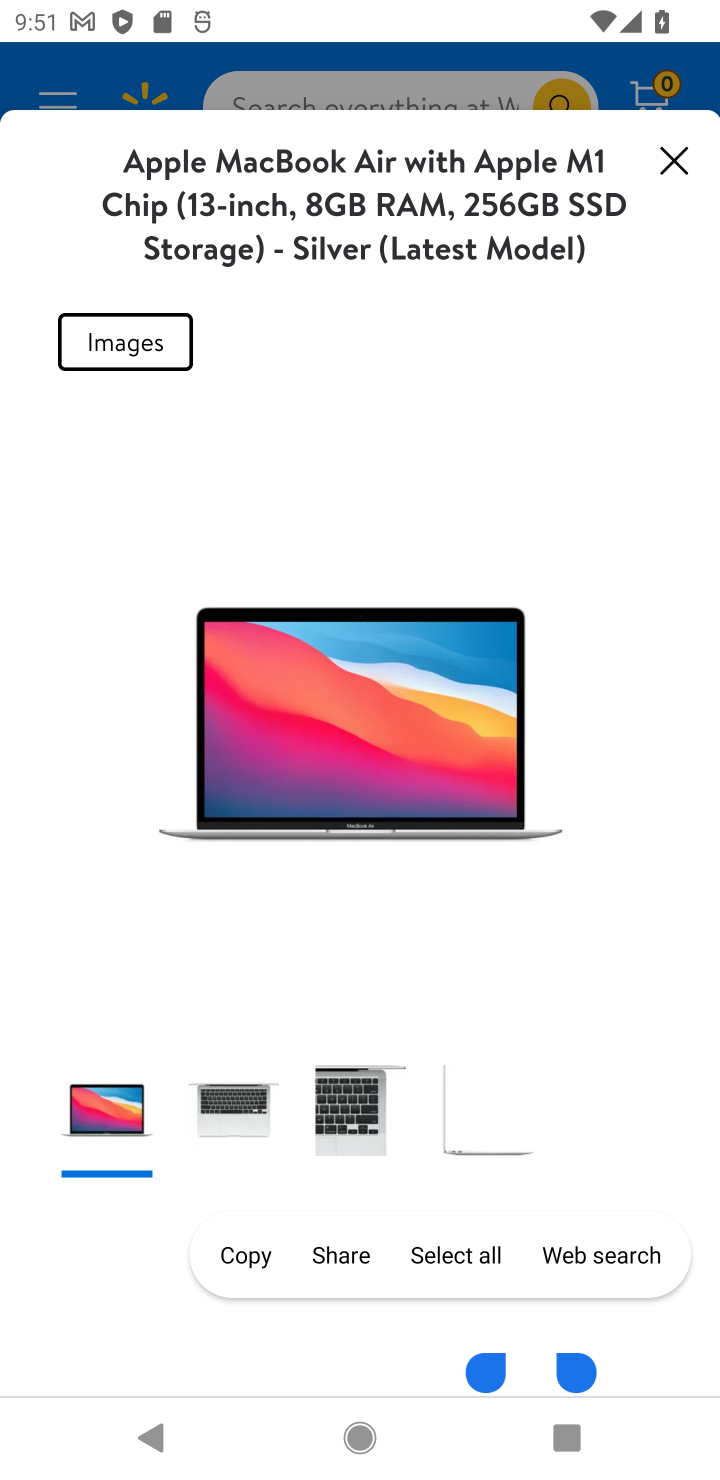
Step 28: click (690, 157)
Your task to perform on an android device: Empty the shopping cart on walmart. Add macbook to the cart on walmart, then select checkout. Image 29: 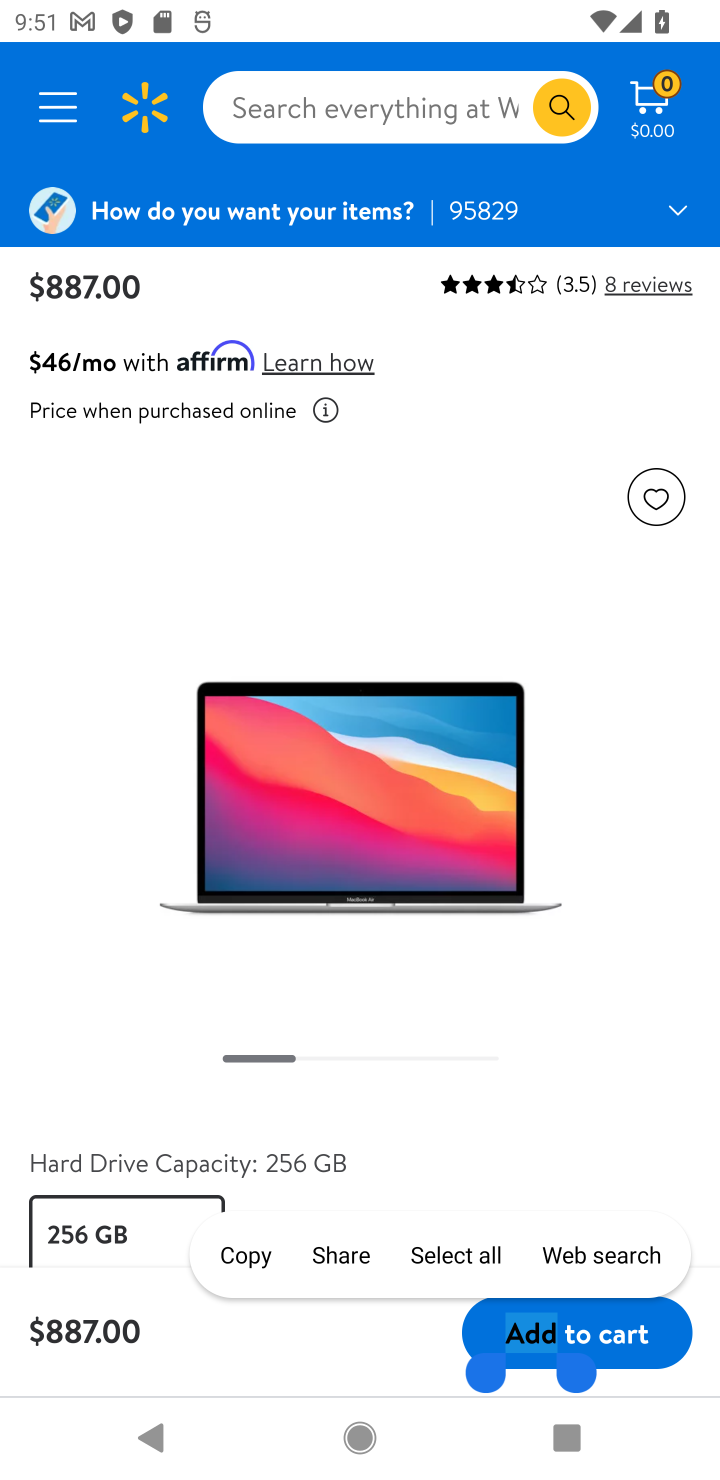
Step 29: click (595, 1008)
Your task to perform on an android device: Empty the shopping cart on walmart. Add macbook to the cart on walmart, then select checkout. Image 30: 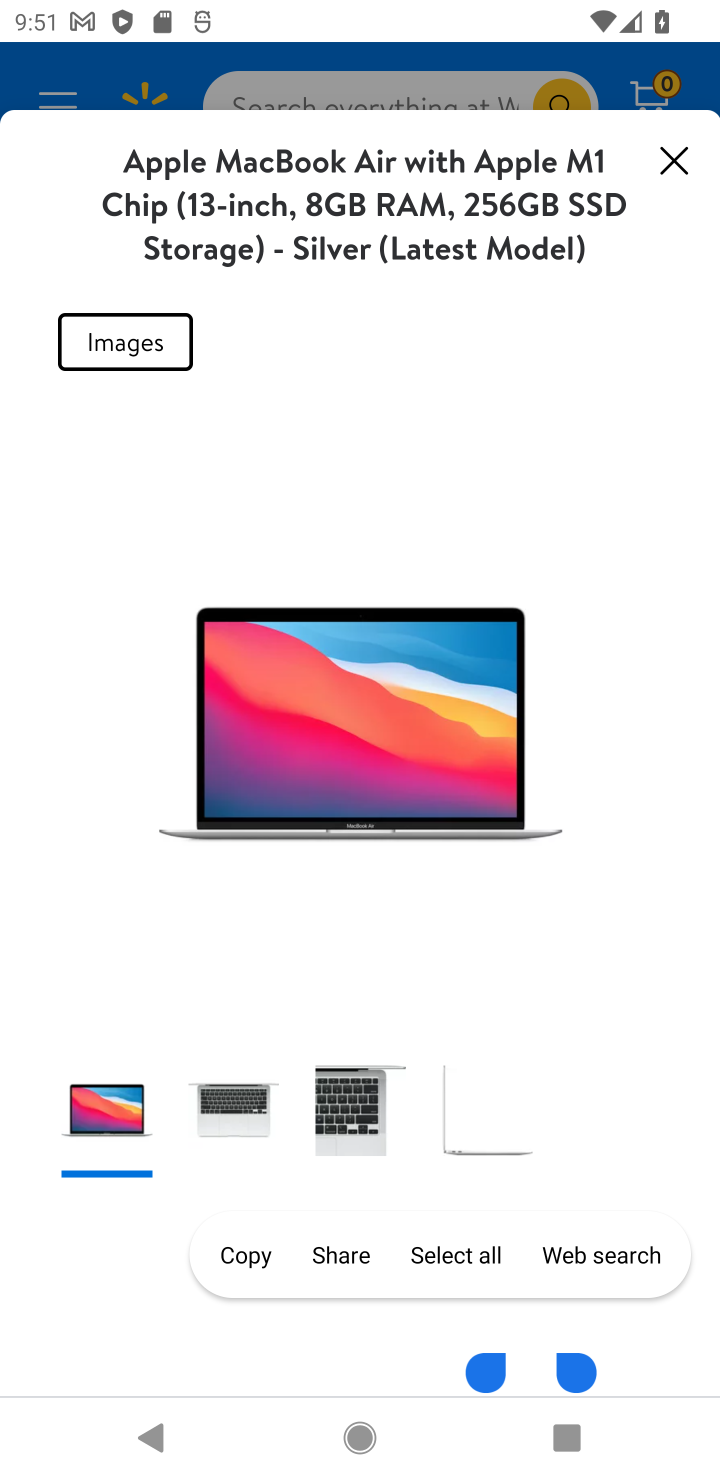
Step 30: click (680, 170)
Your task to perform on an android device: Empty the shopping cart on walmart. Add macbook to the cart on walmart, then select checkout. Image 31: 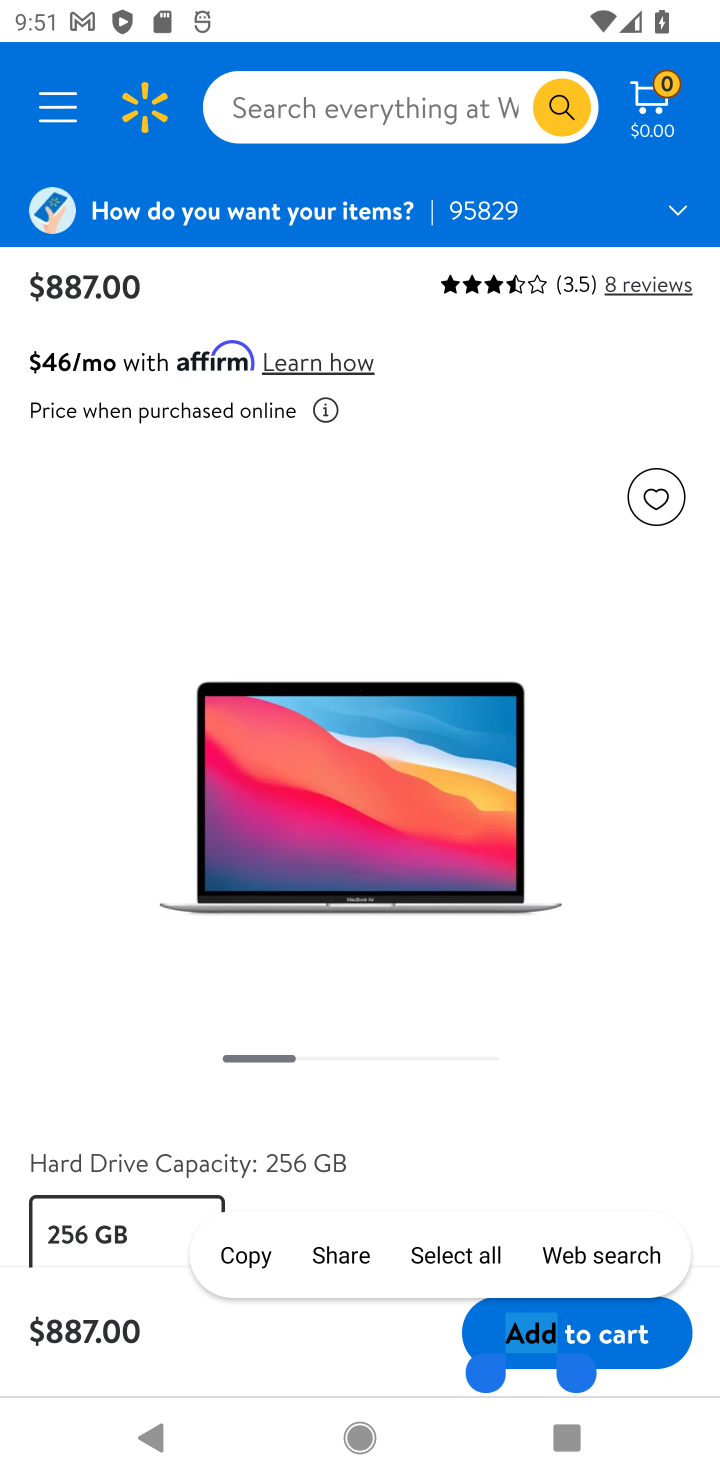
Step 31: click (37, 712)
Your task to perform on an android device: Empty the shopping cart on walmart. Add macbook to the cart on walmart, then select checkout. Image 32: 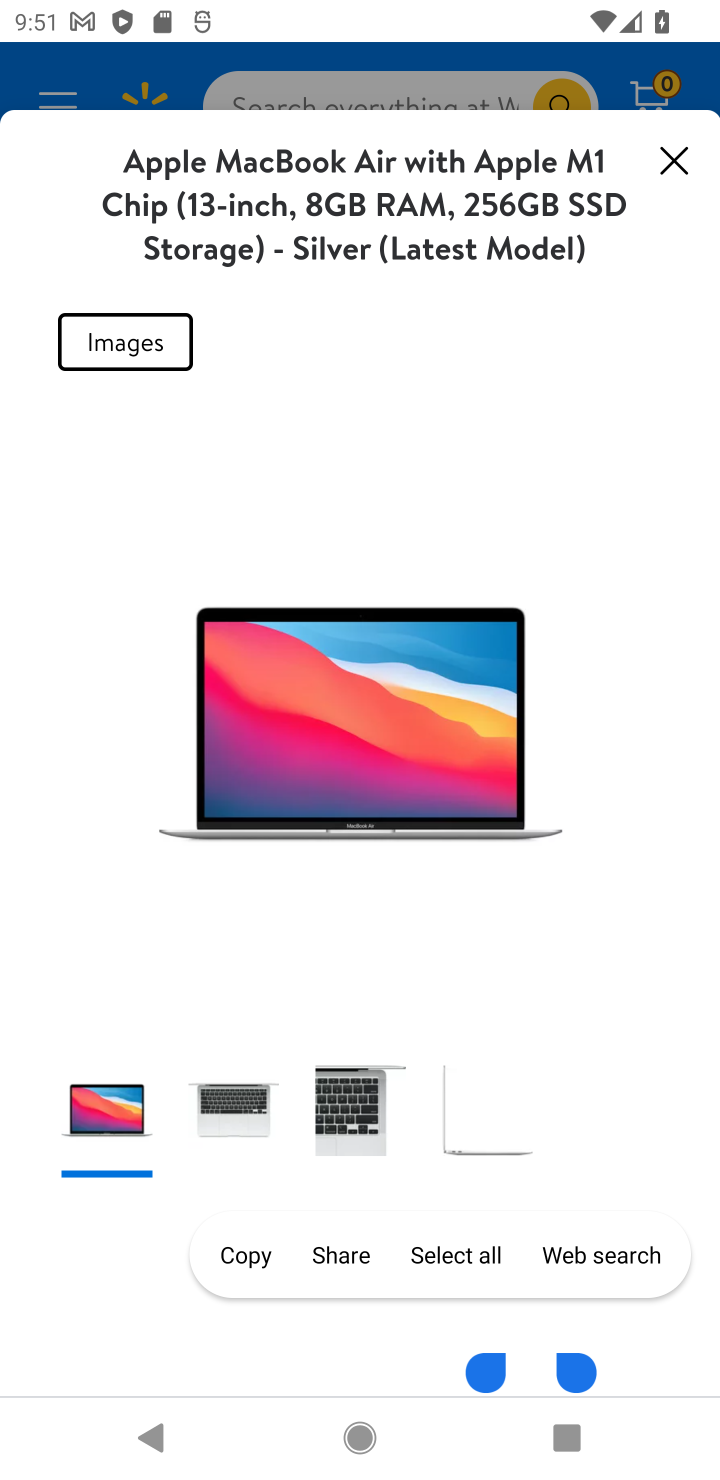
Step 32: click (671, 154)
Your task to perform on an android device: Empty the shopping cart on walmart. Add macbook to the cart on walmart, then select checkout. Image 33: 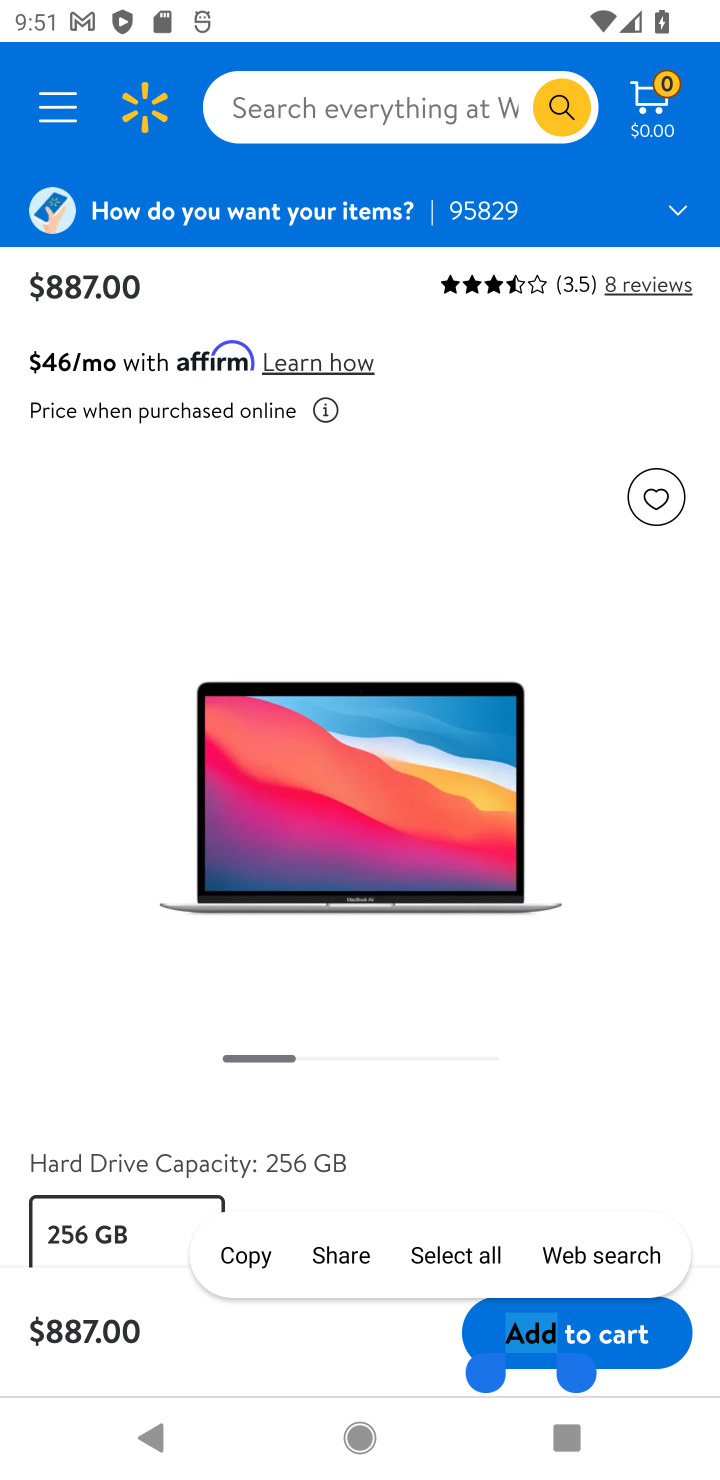
Step 33: click (583, 190)
Your task to perform on an android device: Empty the shopping cart on walmart. Add macbook to the cart on walmart, then select checkout. Image 34: 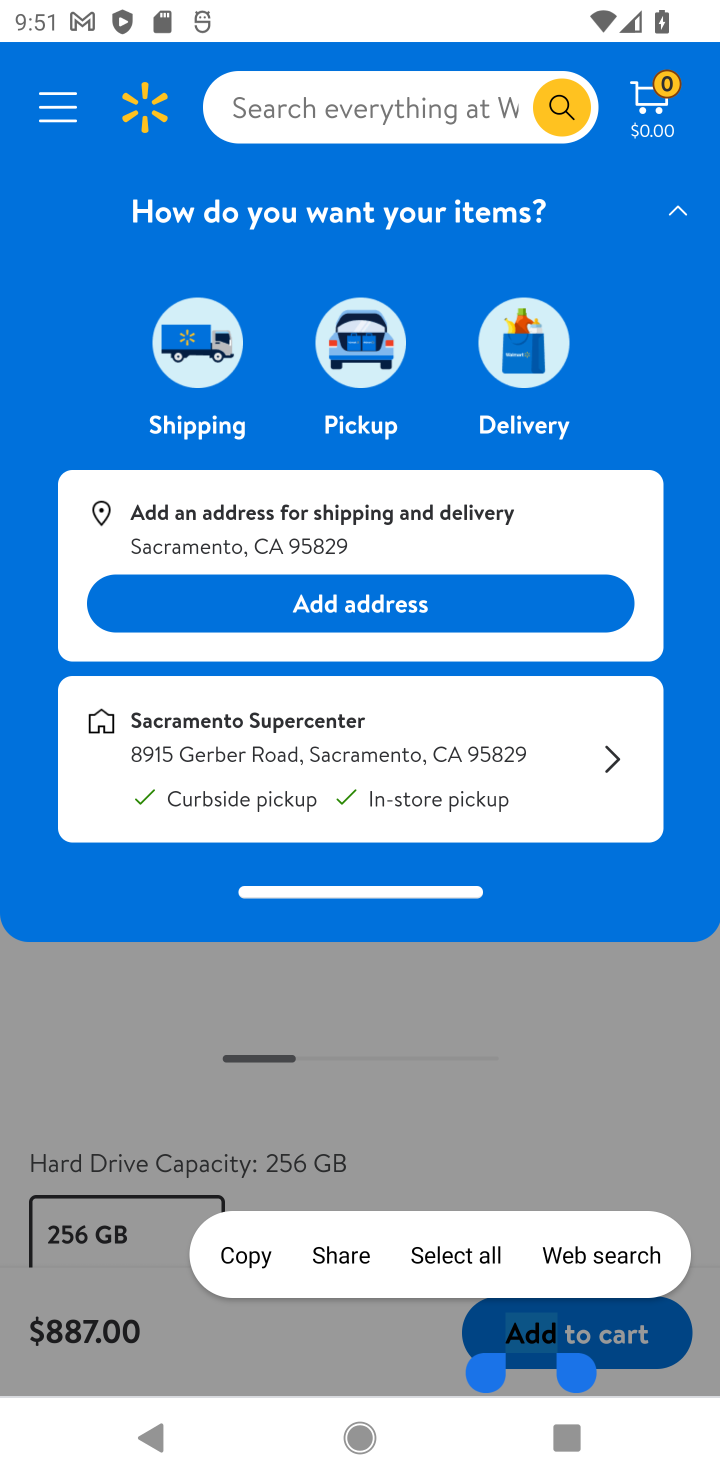
Step 34: click (687, 216)
Your task to perform on an android device: Empty the shopping cart on walmart. Add macbook to the cart on walmart, then select checkout. Image 35: 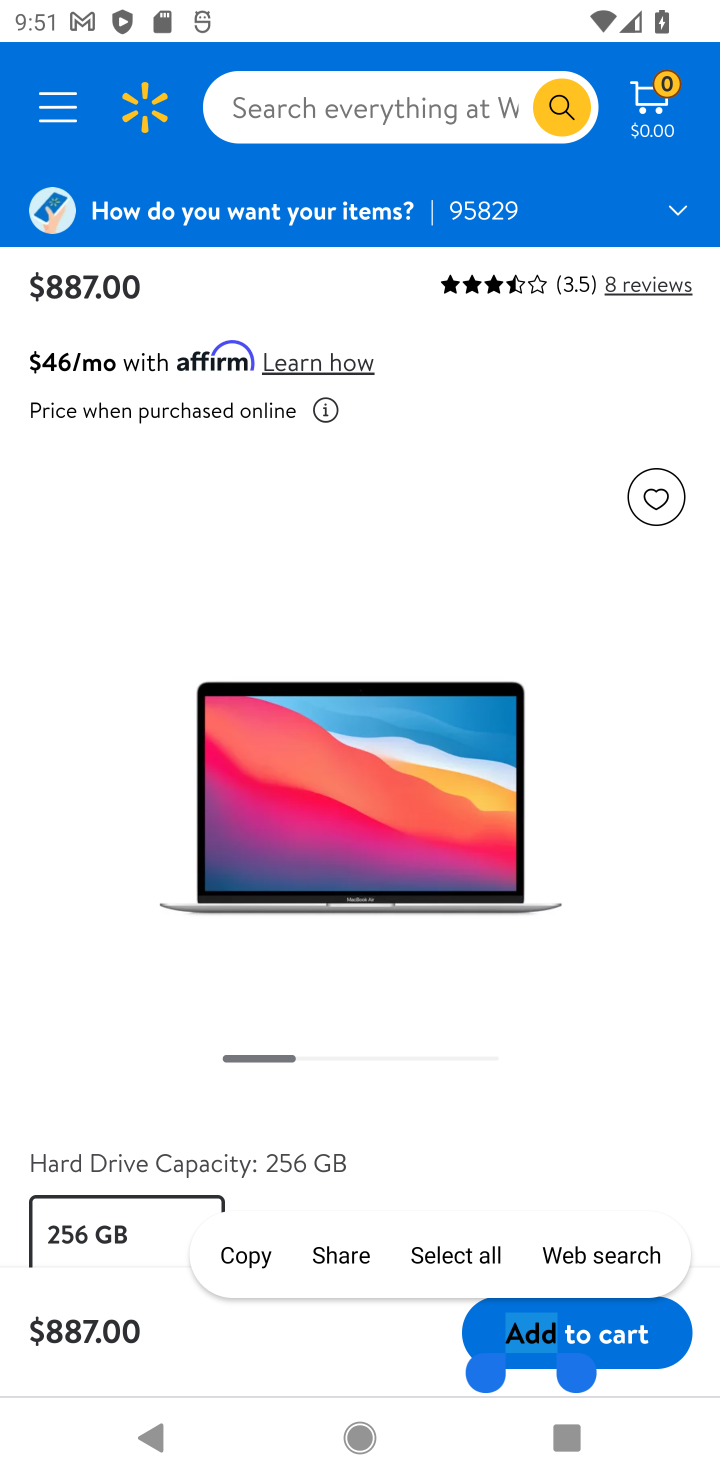
Step 35: click (591, 1339)
Your task to perform on an android device: Empty the shopping cart on walmart. Add macbook to the cart on walmart, then select checkout. Image 36: 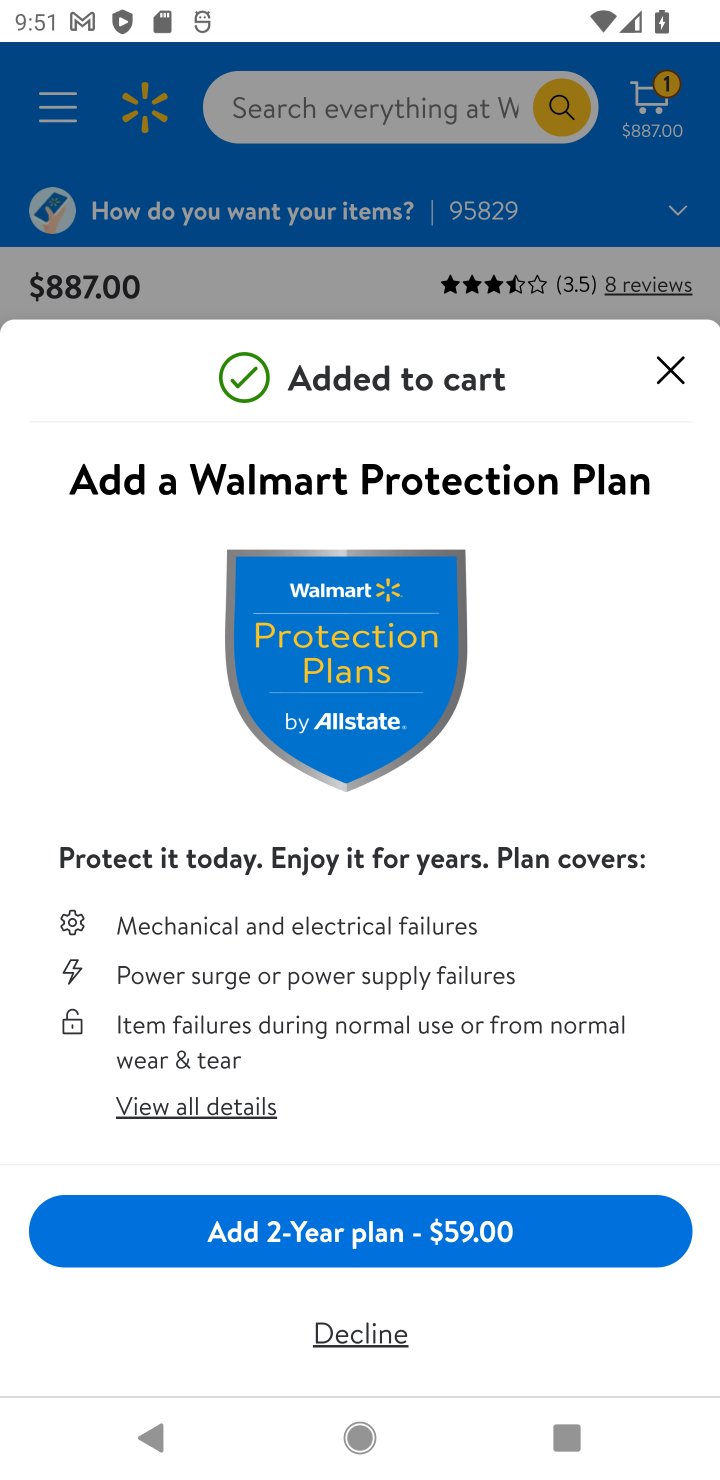
Step 36: click (670, 366)
Your task to perform on an android device: Empty the shopping cart on walmart. Add macbook to the cart on walmart, then select checkout. Image 37: 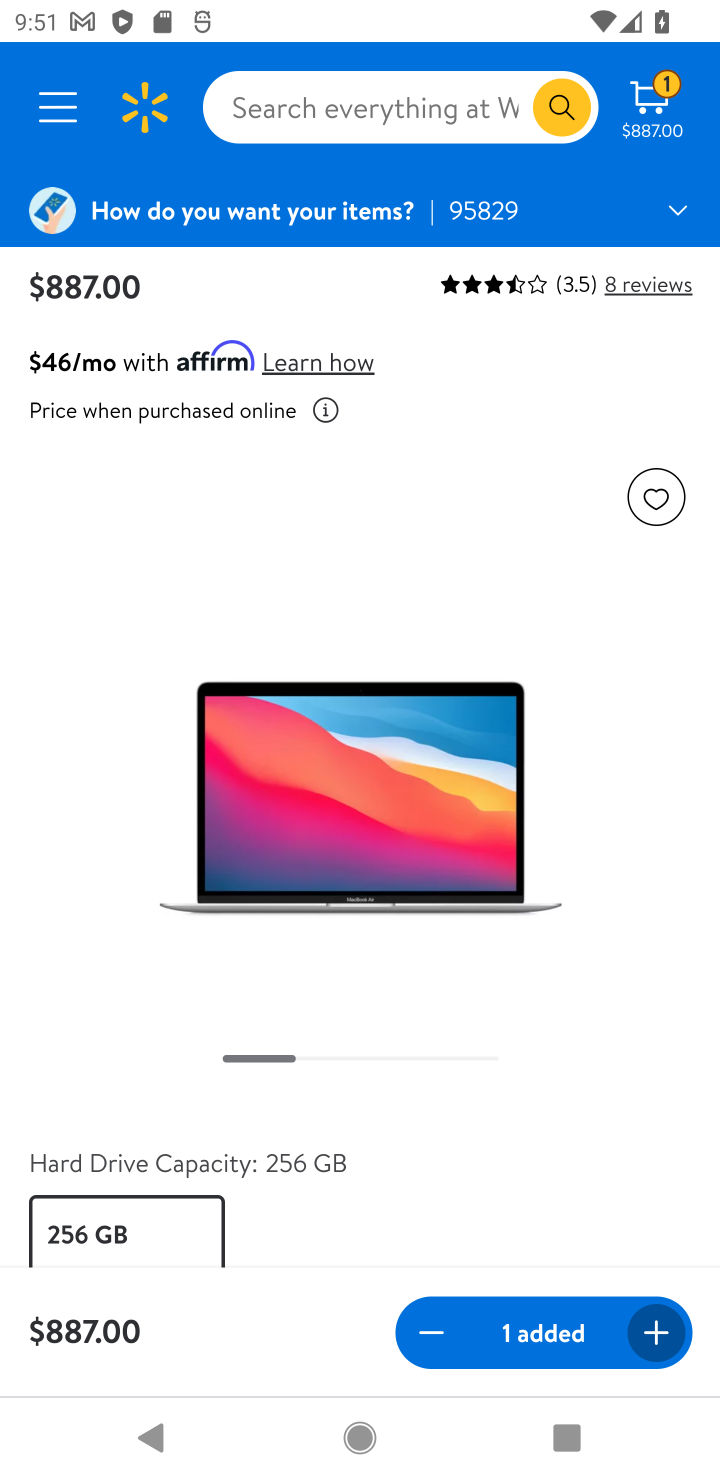
Step 37: click (658, 112)
Your task to perform on an android device: Empty the shopping cart on walmart. Add macbook to the cart on walmart, then select checkout. Image 38: 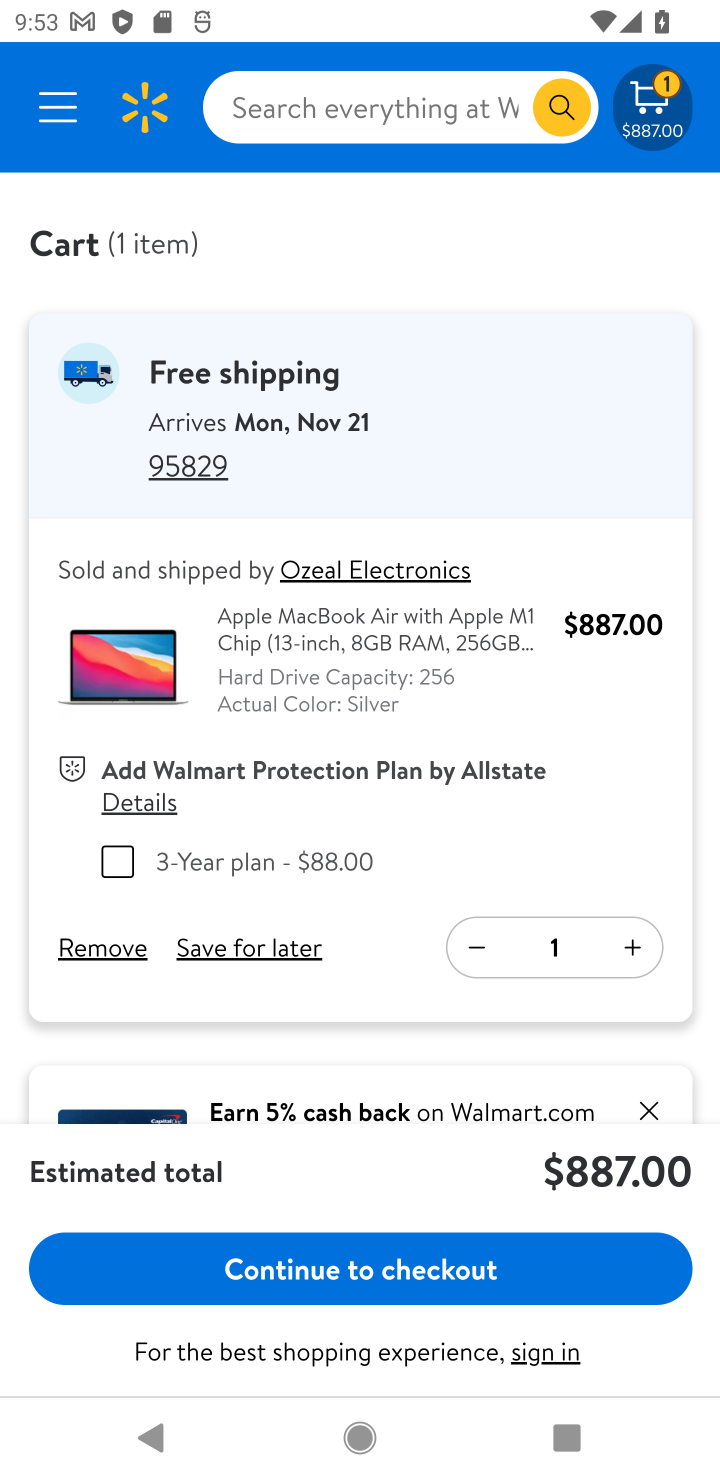
Step 38: click (416, 1267)
Your task to perform on an android device: Empty the shopping cart on walmart. Add macbook to the cart on walmart, then select checkout. Image 39: 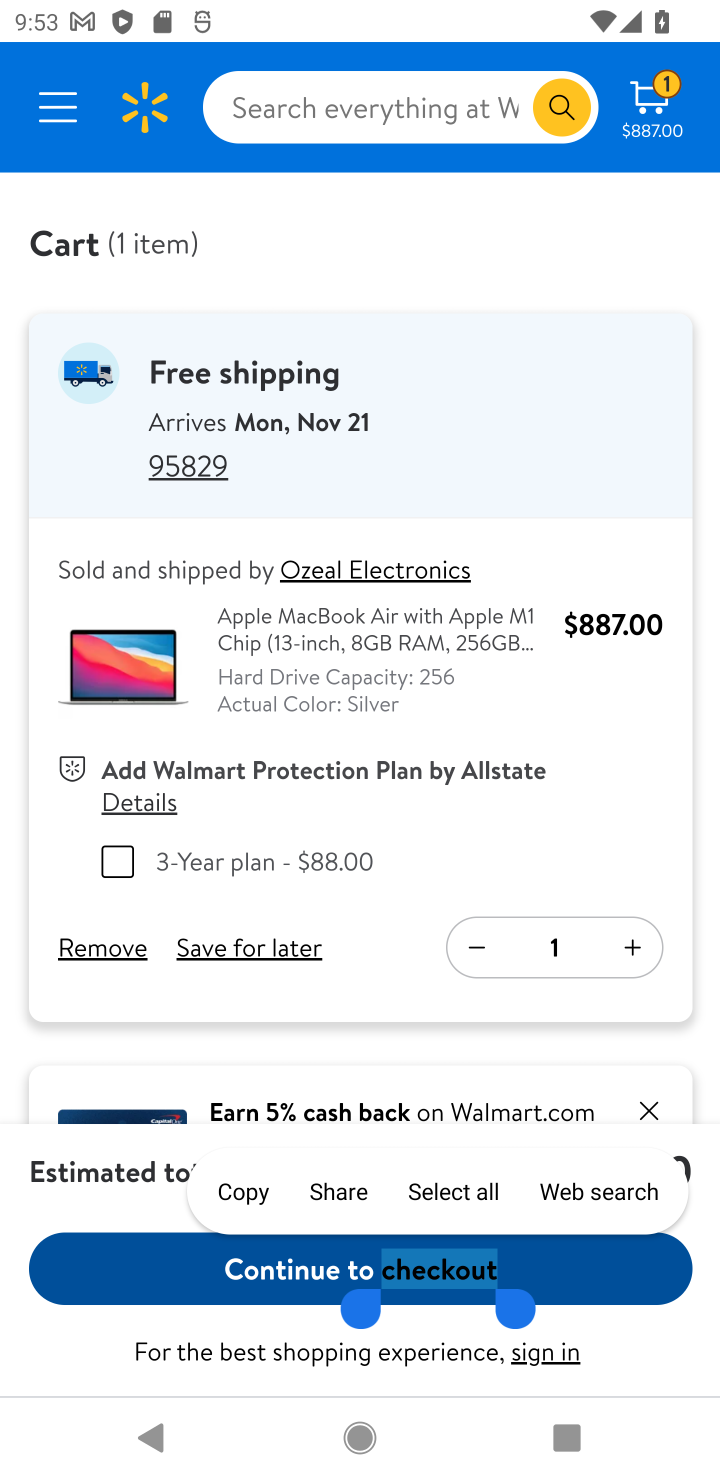
Step 39: click (319, 1281)
Your task to perform on an android device: Empty the shopping cart on walmart. Add macbook to the cart on walmart, then select checkout. Image 40: 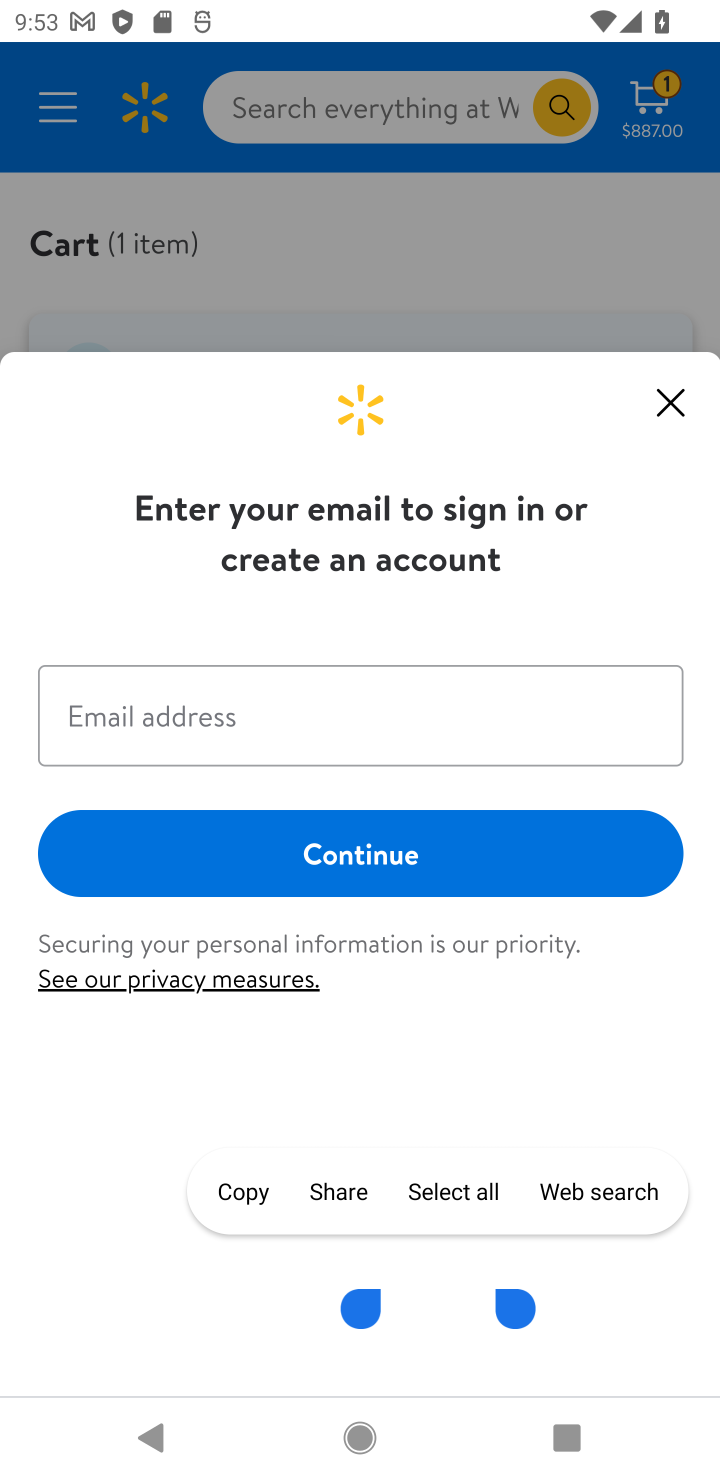
Step 40: task complete